Your task to perform on an android device: Check the news Image 0: 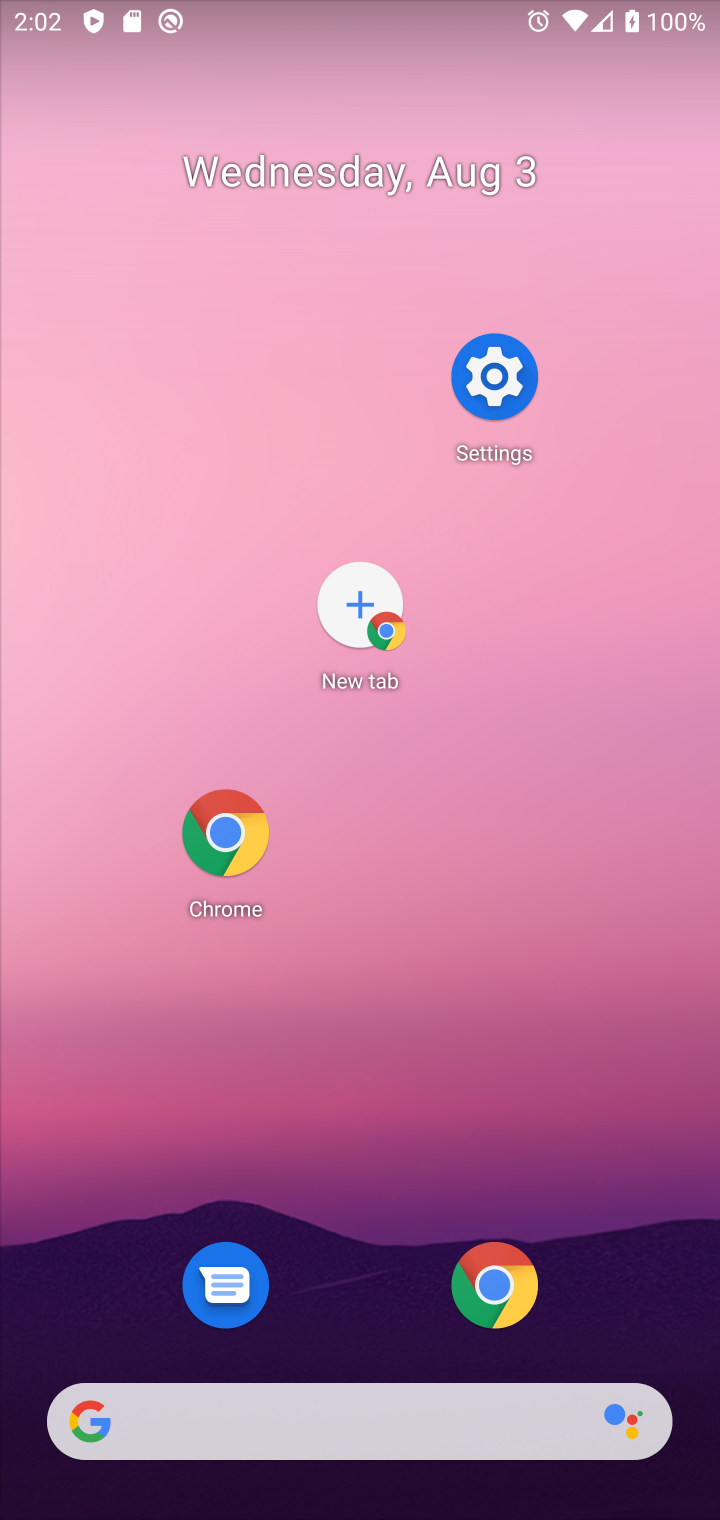
Step 0: drag from (301, 390) to (275, 228)
Your task to perform on an android device: Check the news Image 1: 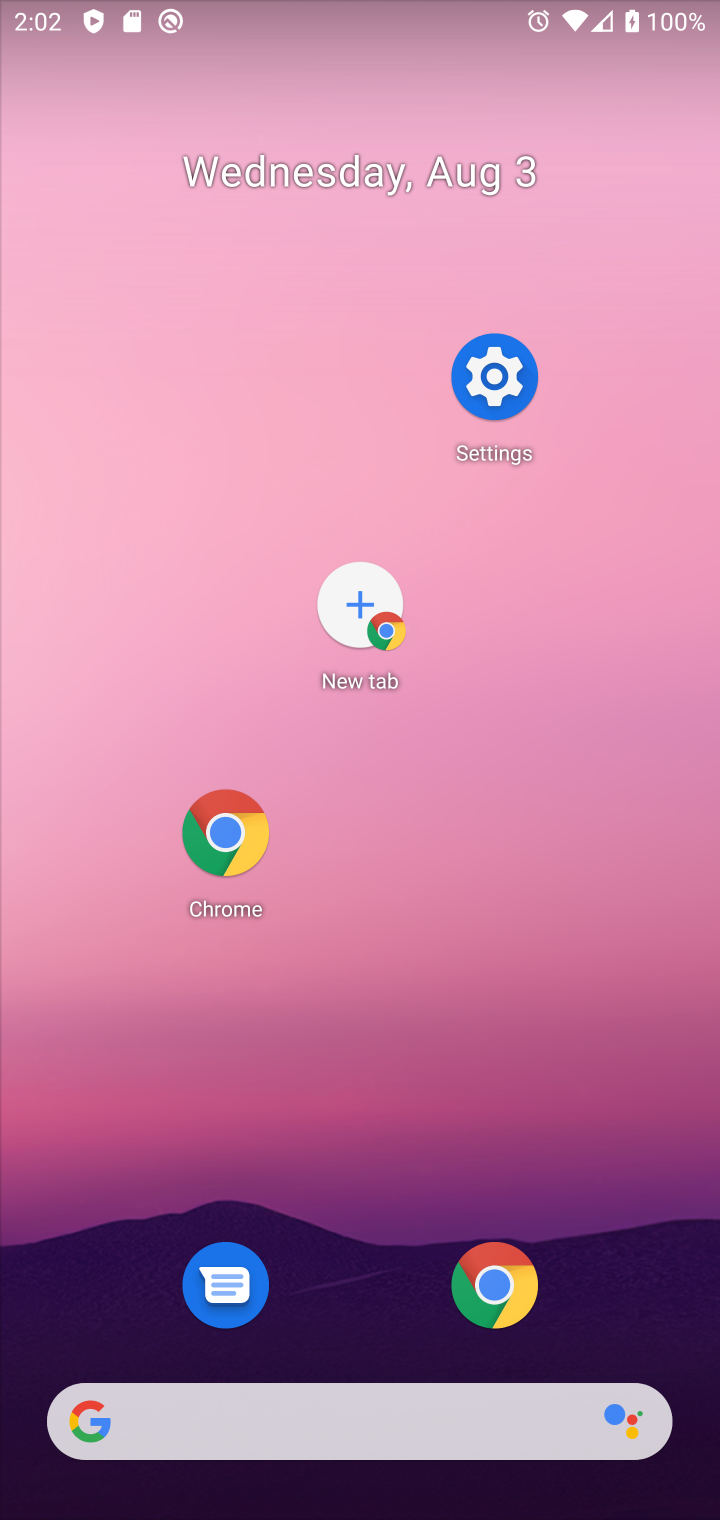
Step 1: click (340, 826)
Your task to perform on an android device: Check the news Image 2: 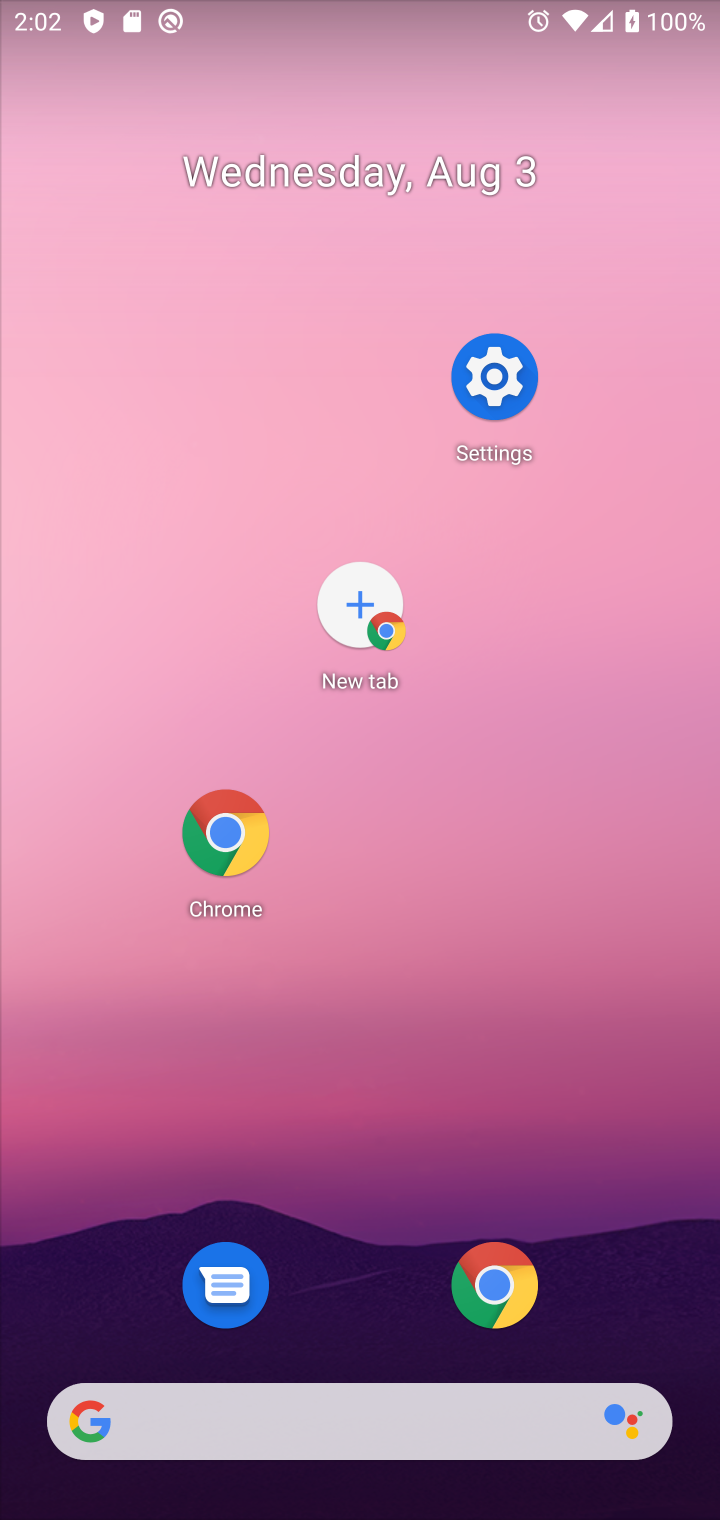
Step 2: drag from (329, 1224) to (221, 276)
Your task to perform on an android device: Check the news Image 3: 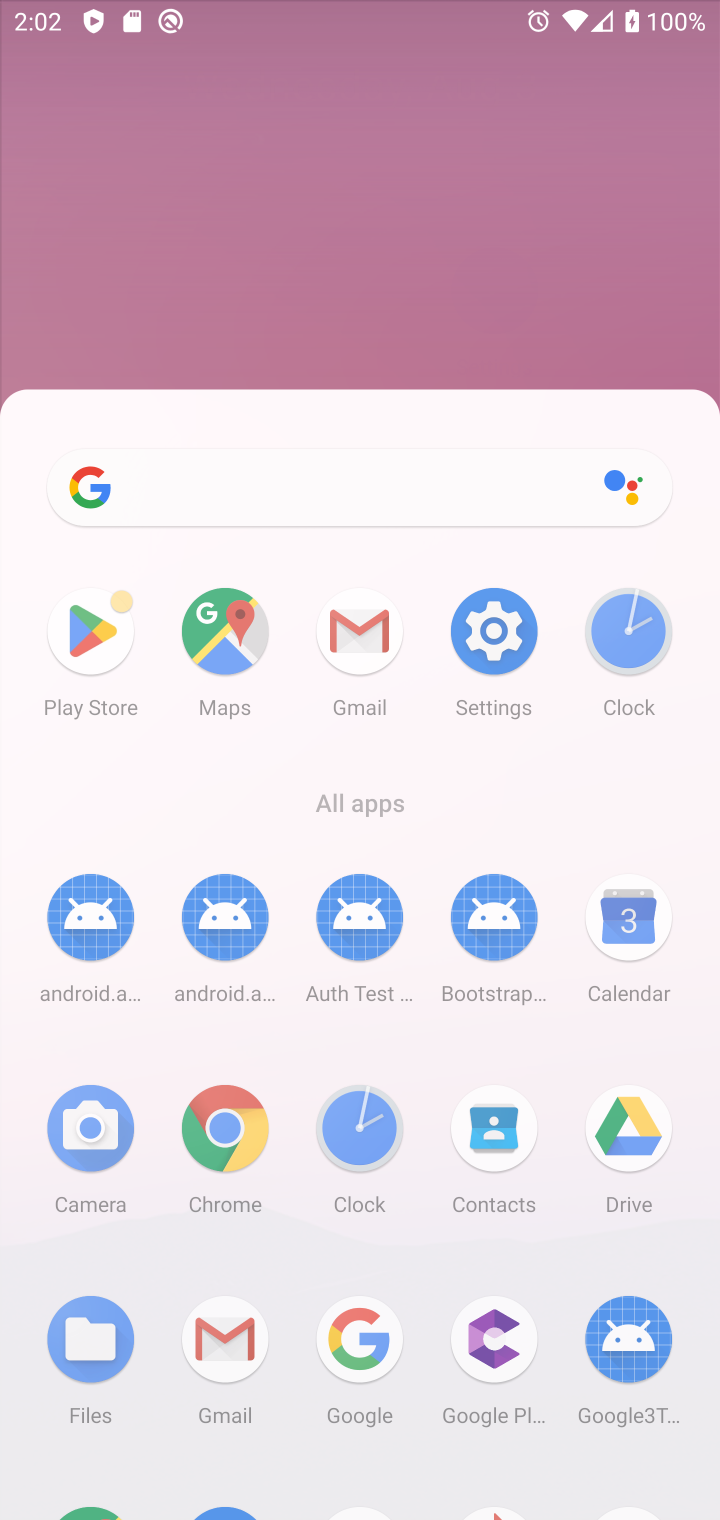
Step 3: drag from (322, 1159) to (169, 240)
Your task to perform on an android device: Check the news Image 4: 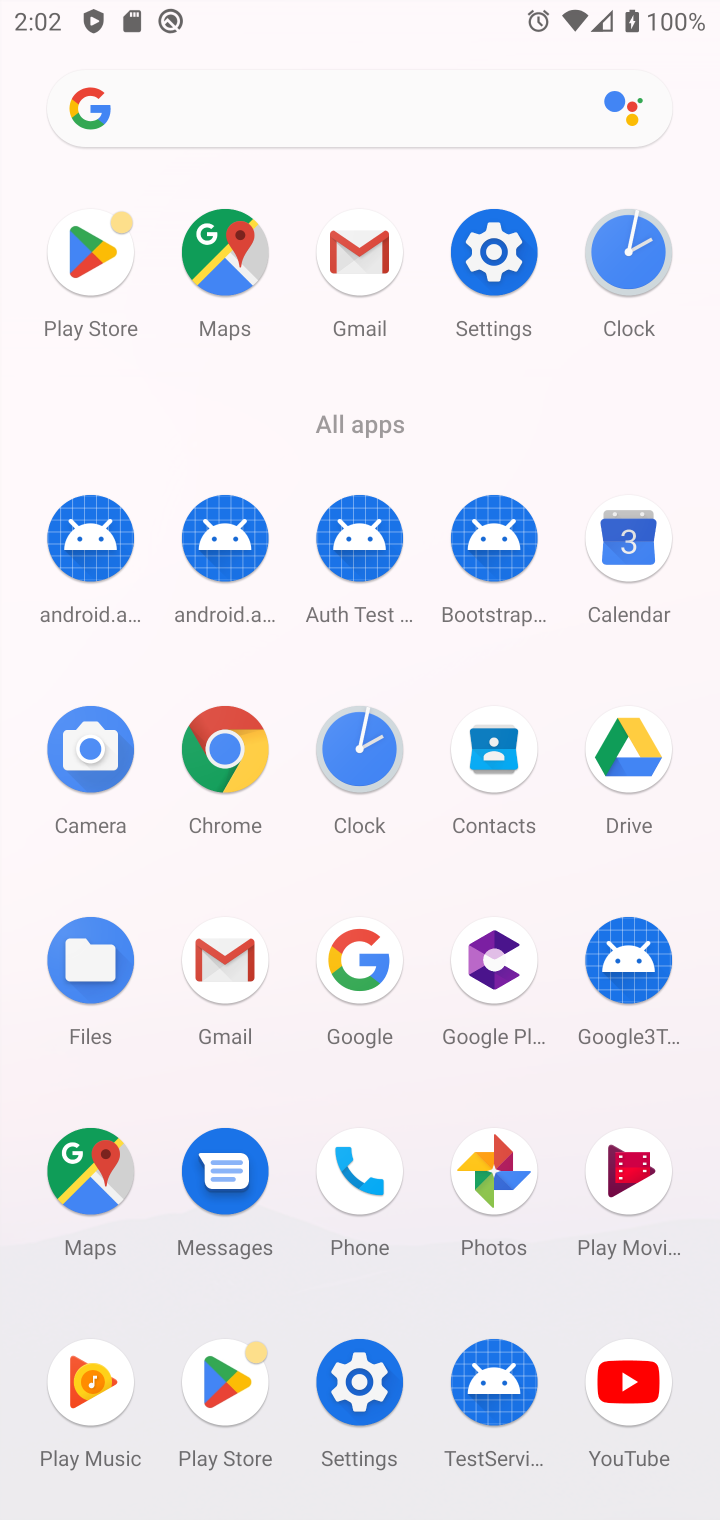
Step 4: click (470, 246)
Your task to perform on an android device: Check the news Image 5: 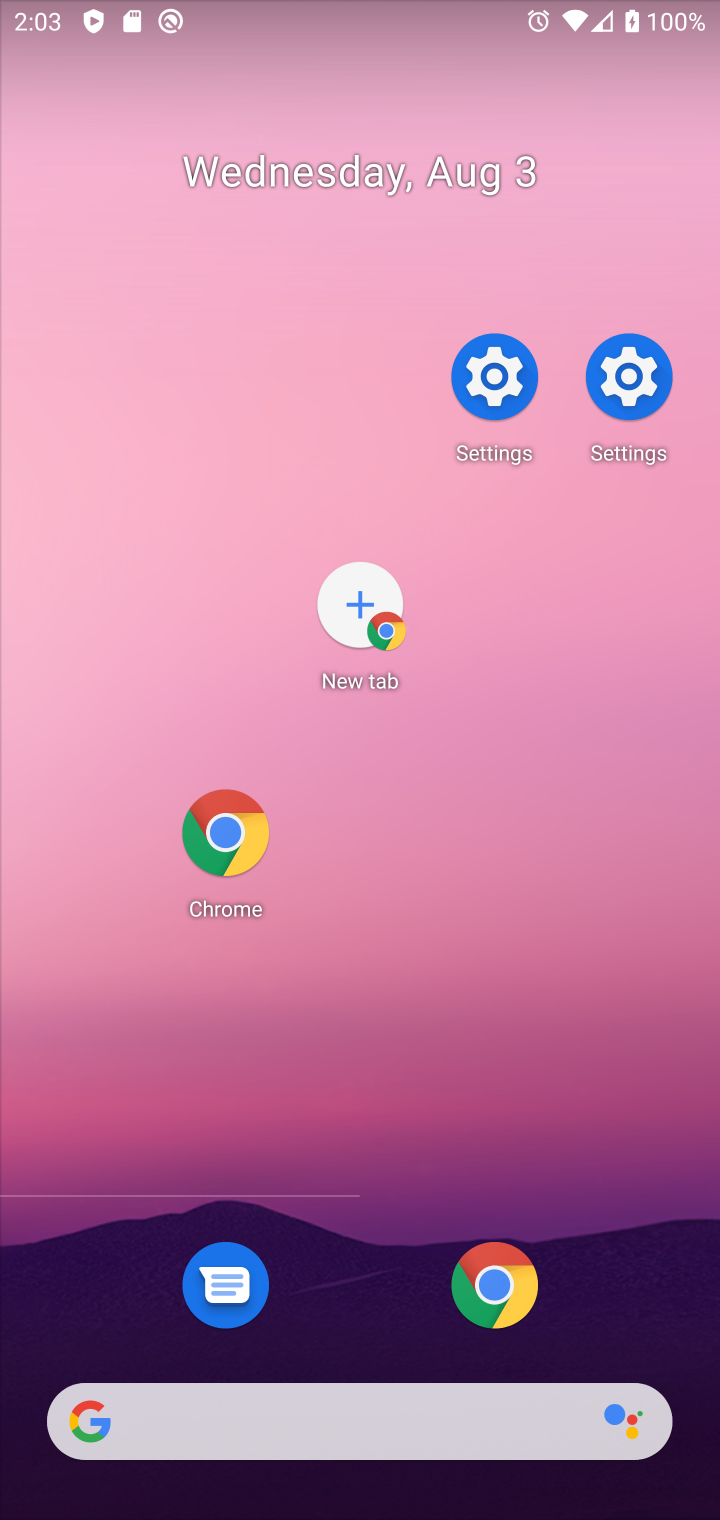
Step 5: click (313, 81)
Your task to perform on an android device: Check the news Image 6: 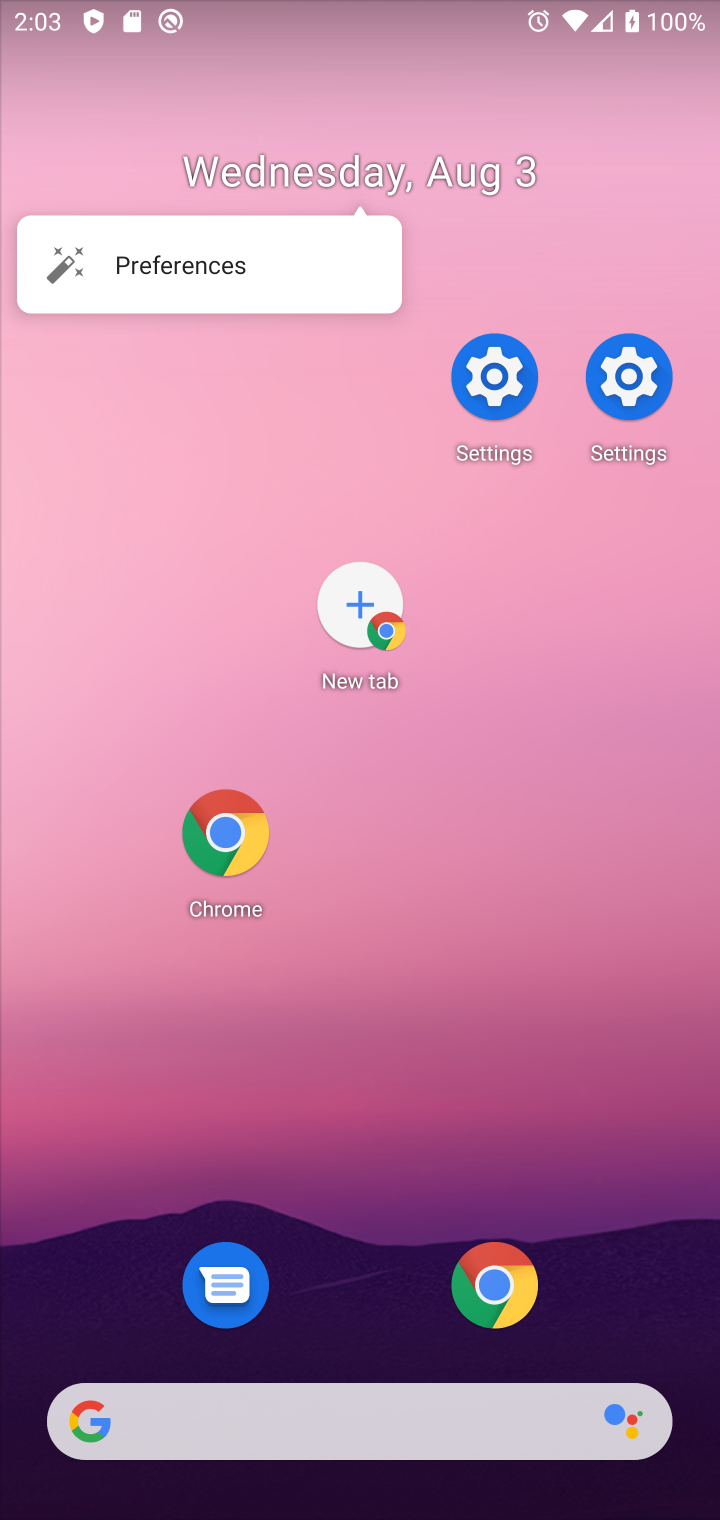
Step 6: press back button
Your task to perform on an android device: Check the news Image 7: 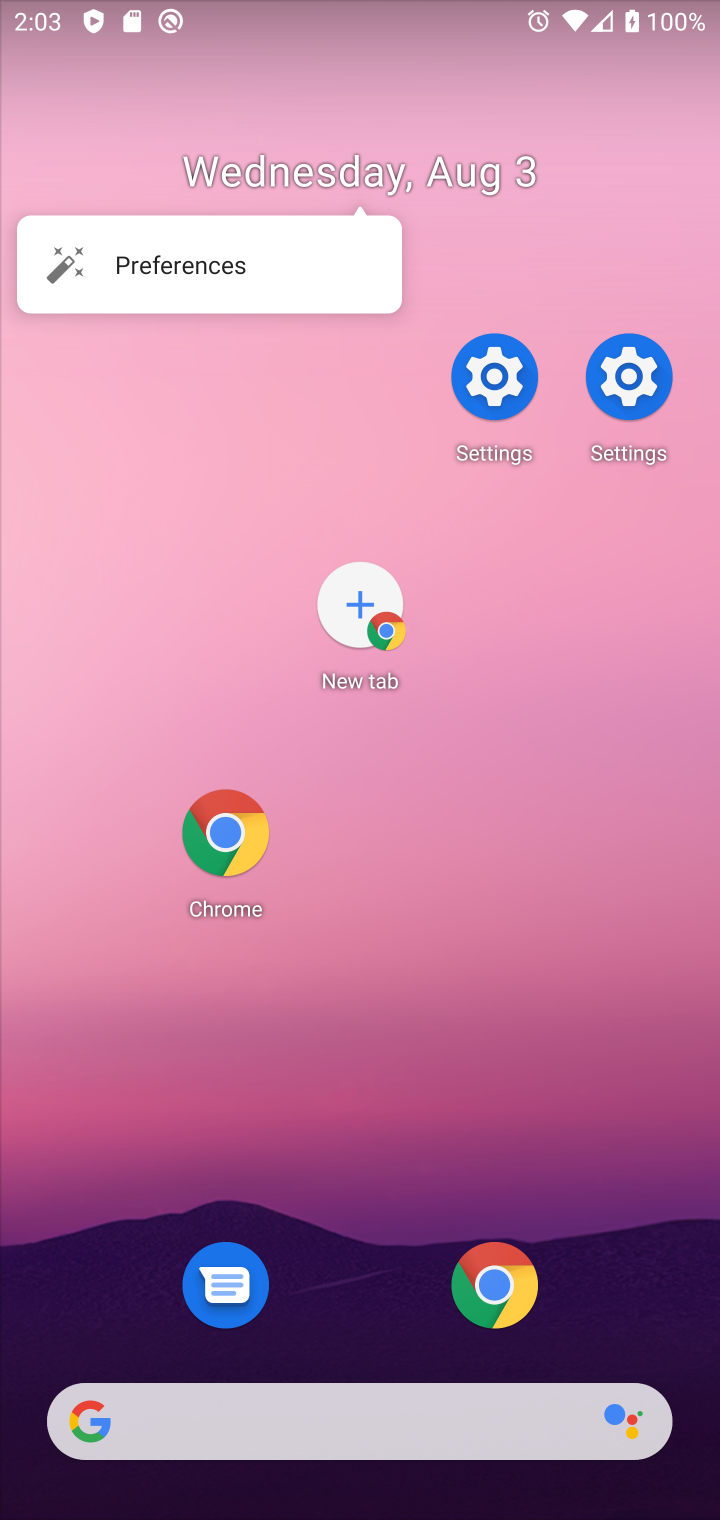
Step 7: press back button
Your task to perform on an android device: Check the news Image 8: 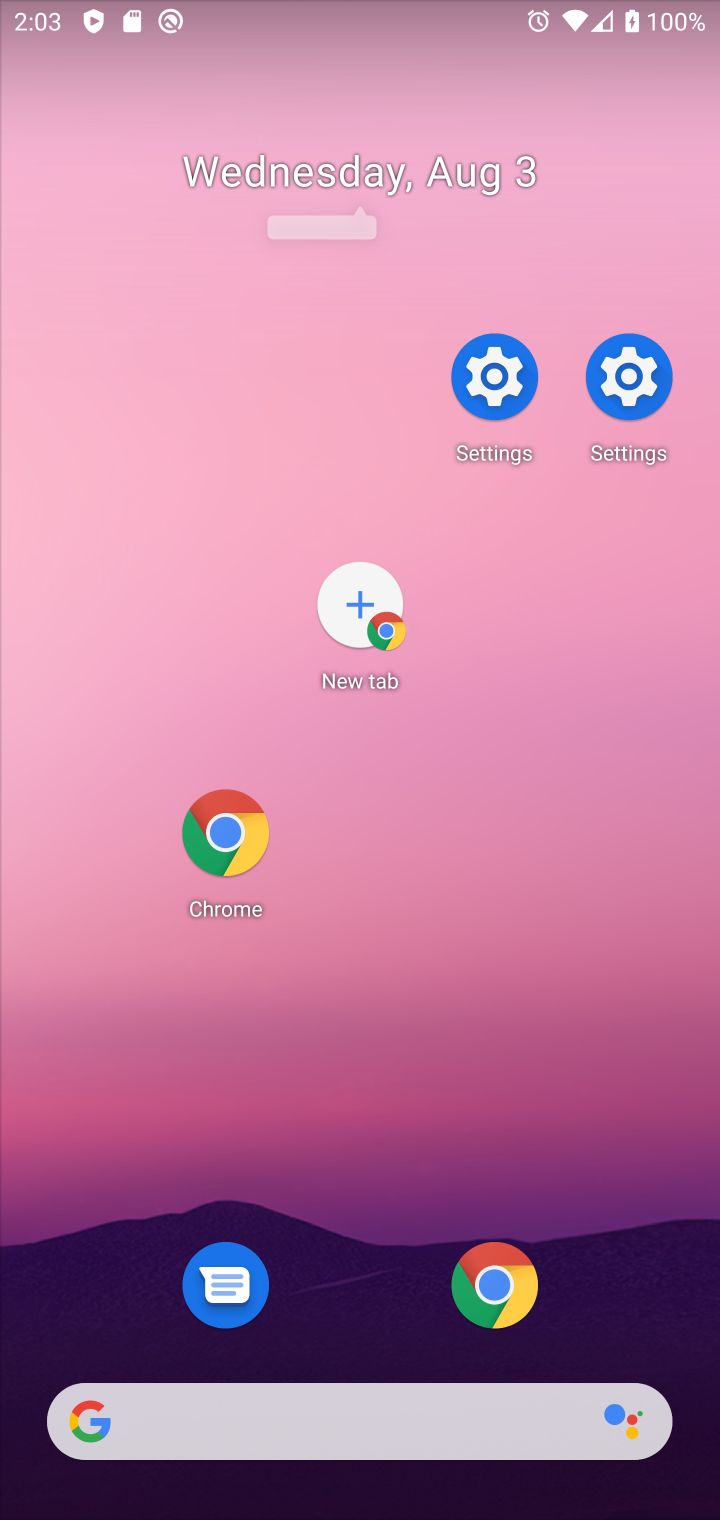
Step 8: drag from (458, 728) to (319, 118)
Your task to perform on an android device: Check the news Image 9: 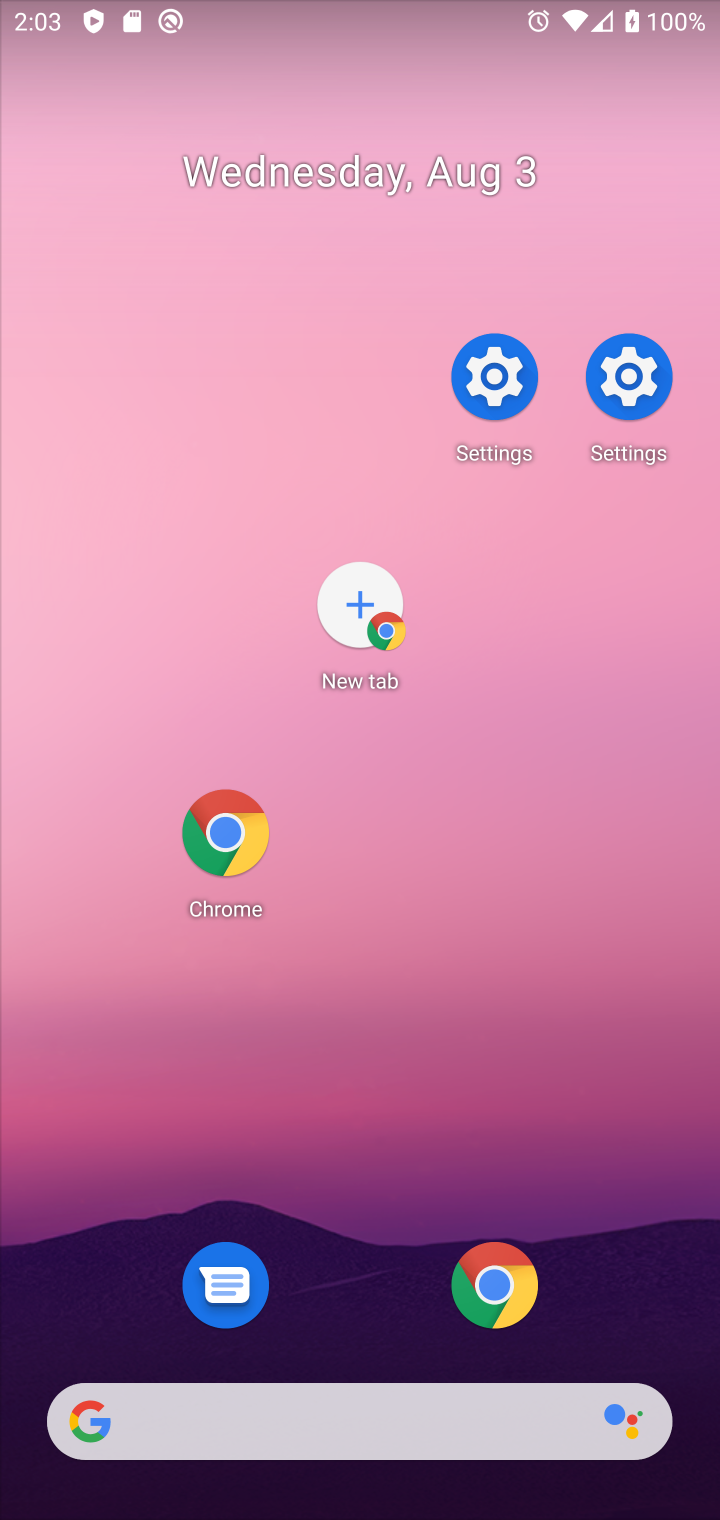
Step 9: drag from (390, 1014) to (276, 14)
Your task to perform on an android device: Check the news Image 10: 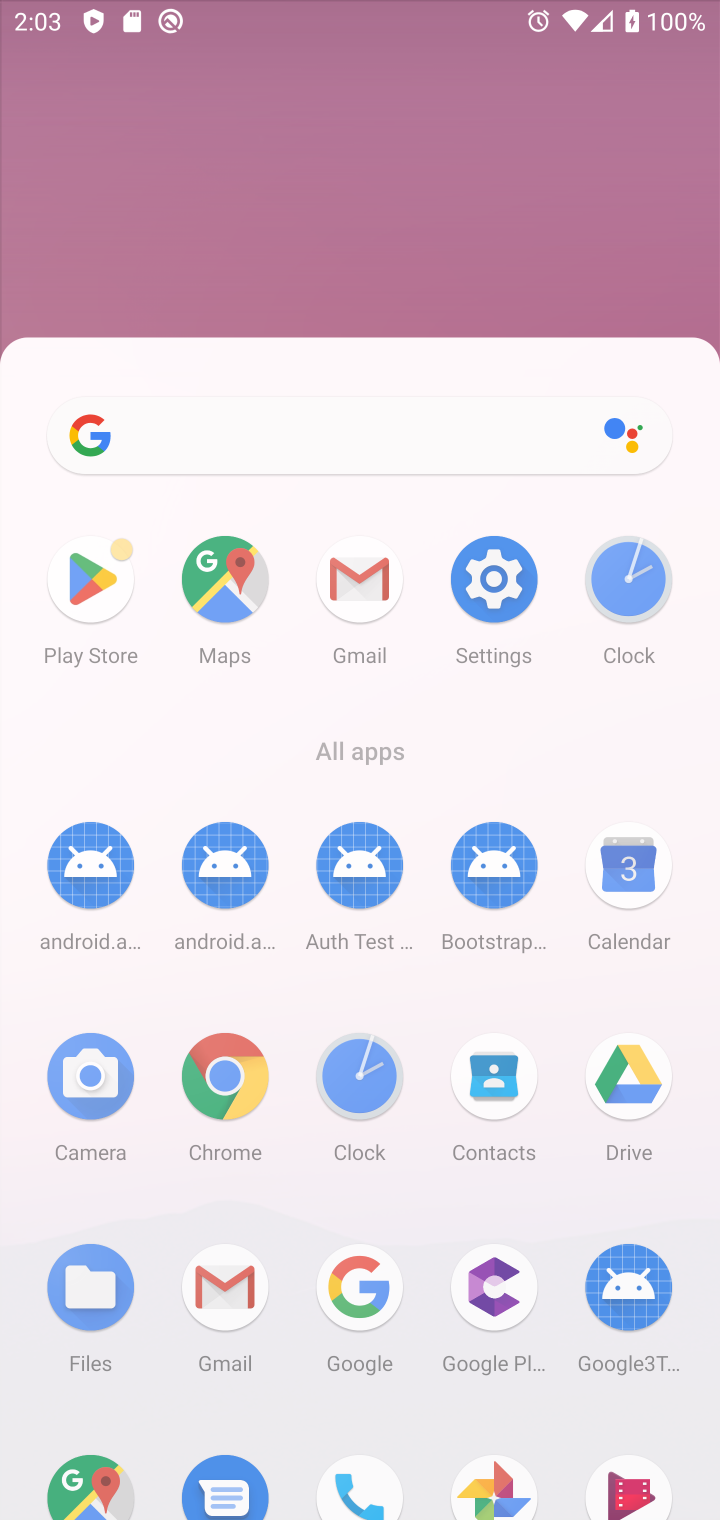
Step 10: click (288, 392)
Your task to perform on an android device: Check the news Image 11: 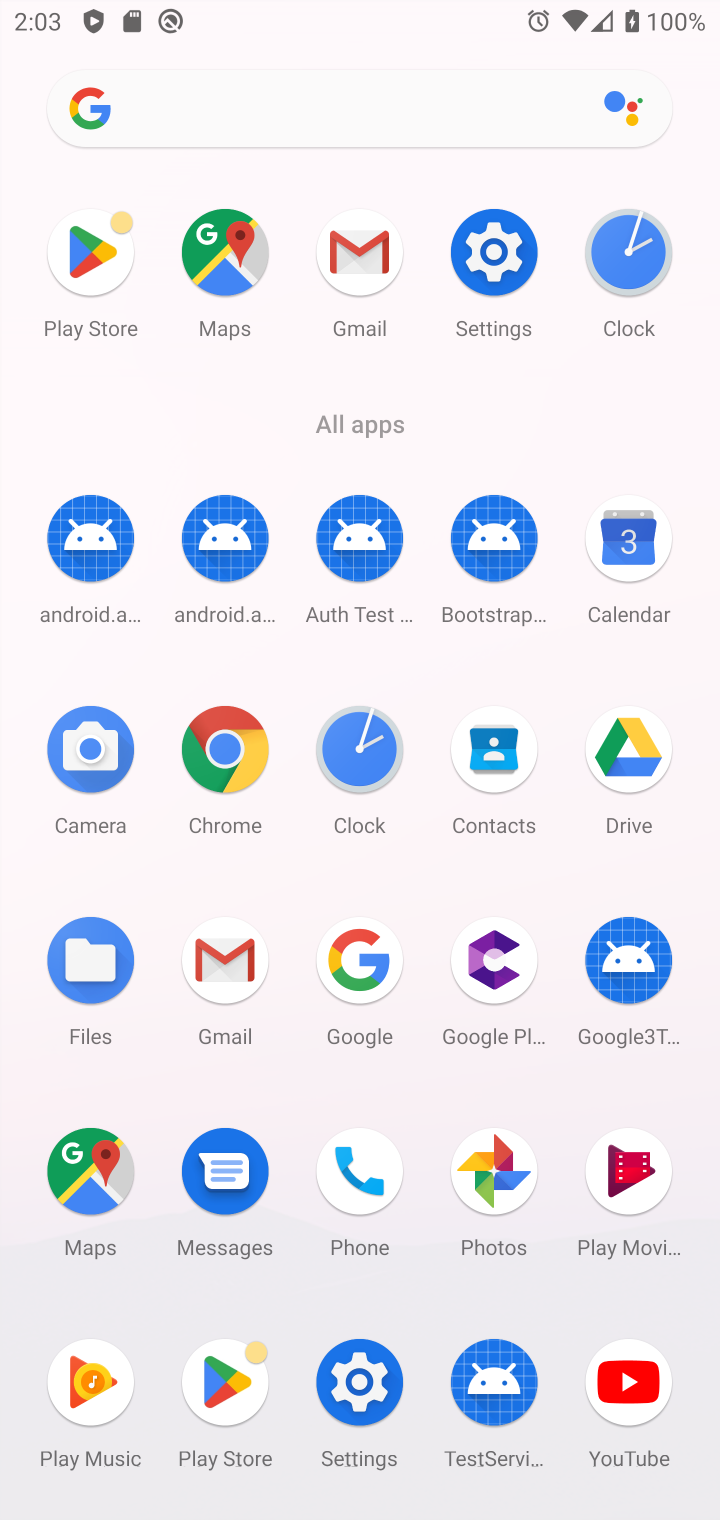
Step 11: click (508, 266)
Your task to perform on an android device: Check the news Image 12: 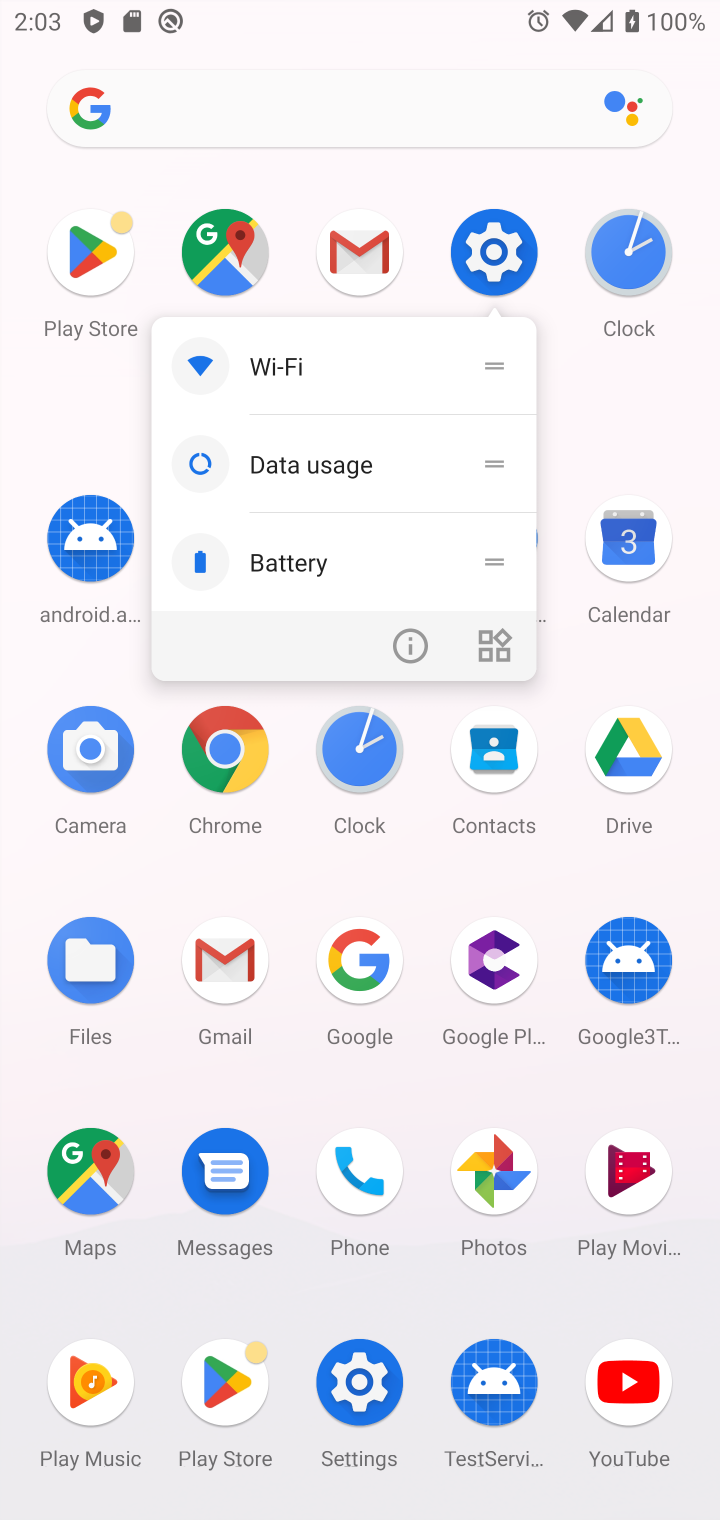
Step 12: click (611, 248)
Your task to perform on an android device: Check the news Image 13: 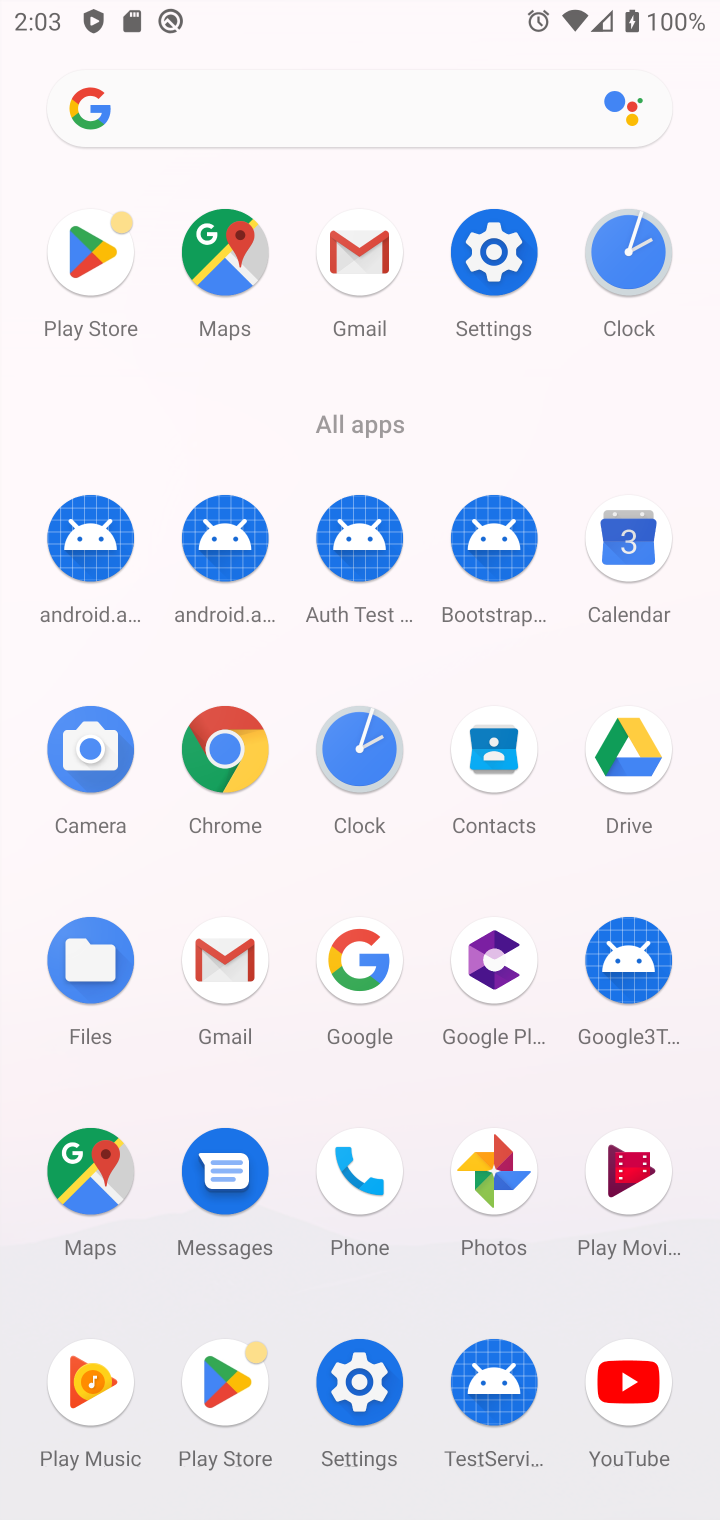
Step 13: click (626, 252)
Your task to perform on an android device: Check the news Image 14: 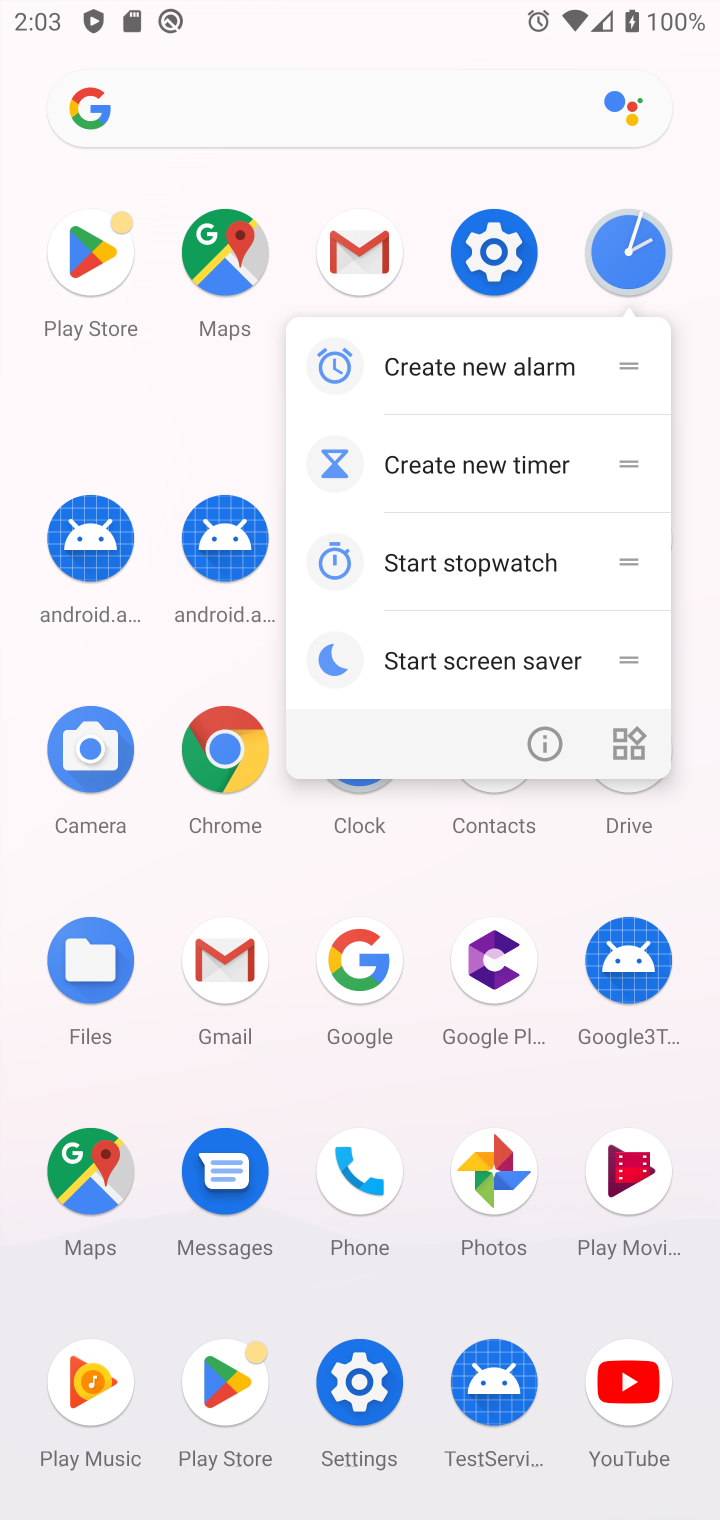
Step 14: click (627, 249)
Your task to perform on an android device: Check the news Image 15: 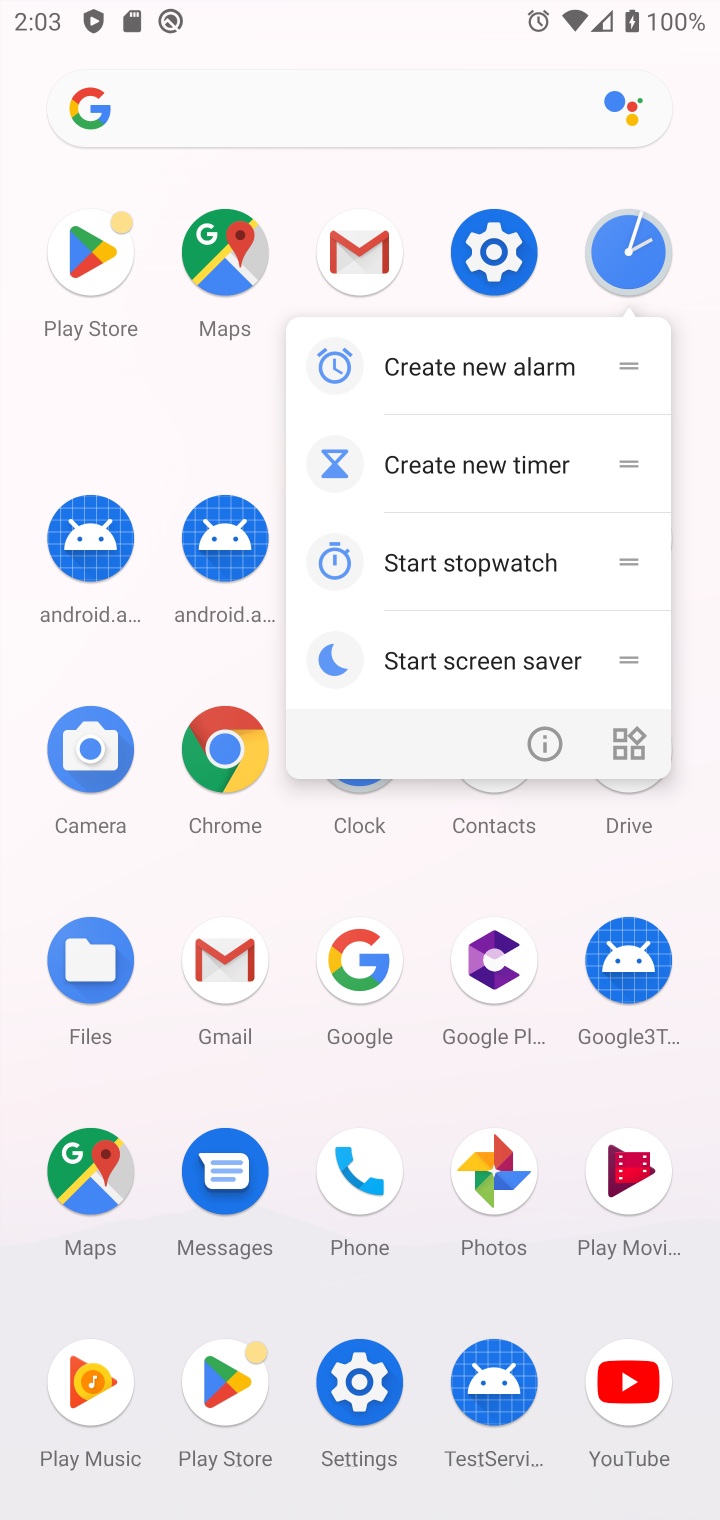
Step 15: click (621, 273)
Your task to perform on an android device: Check the news Image 16: 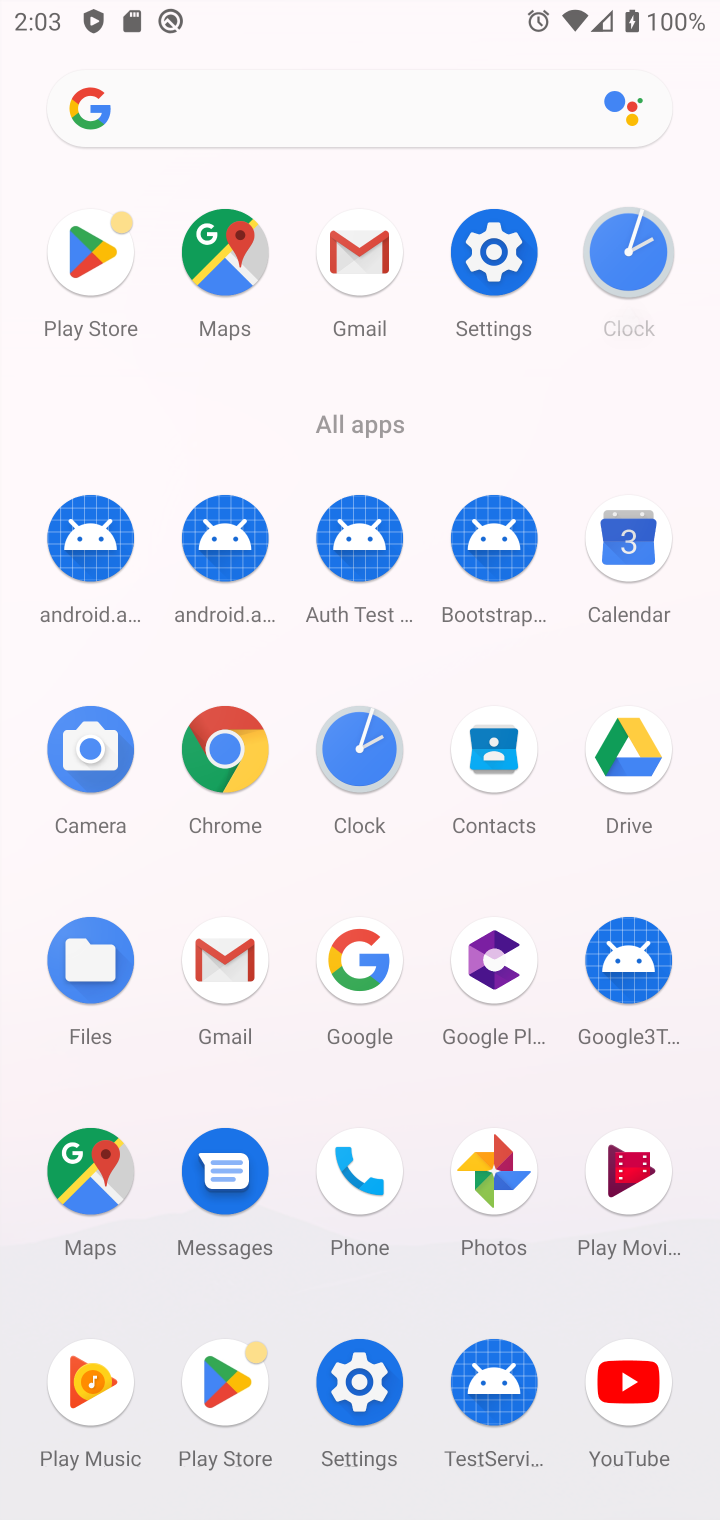
Step 16: click (619, 281)
Your task to perform on an android device: Check the news Image 17: 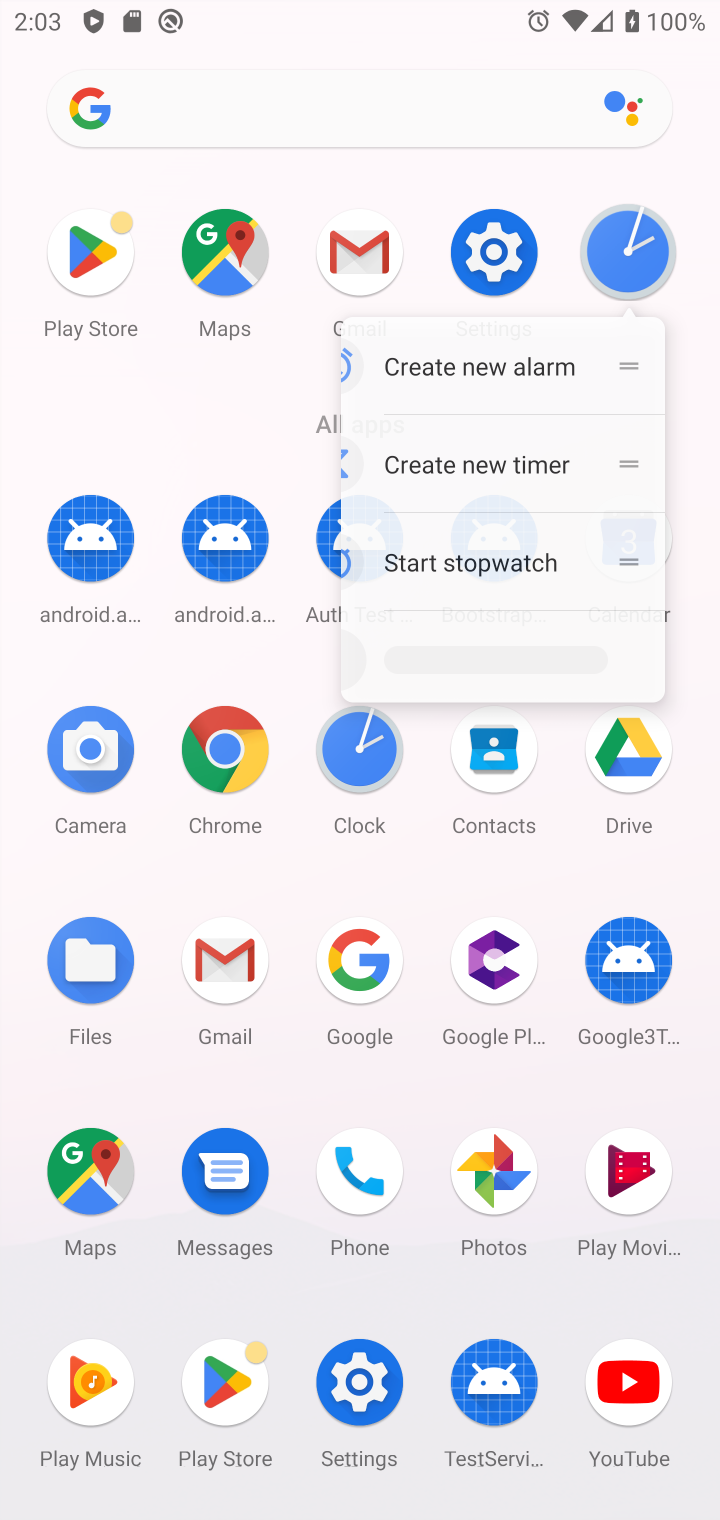
Step 17: click (631, 224)
Your task to perform on an android device: Check the news Image 18: 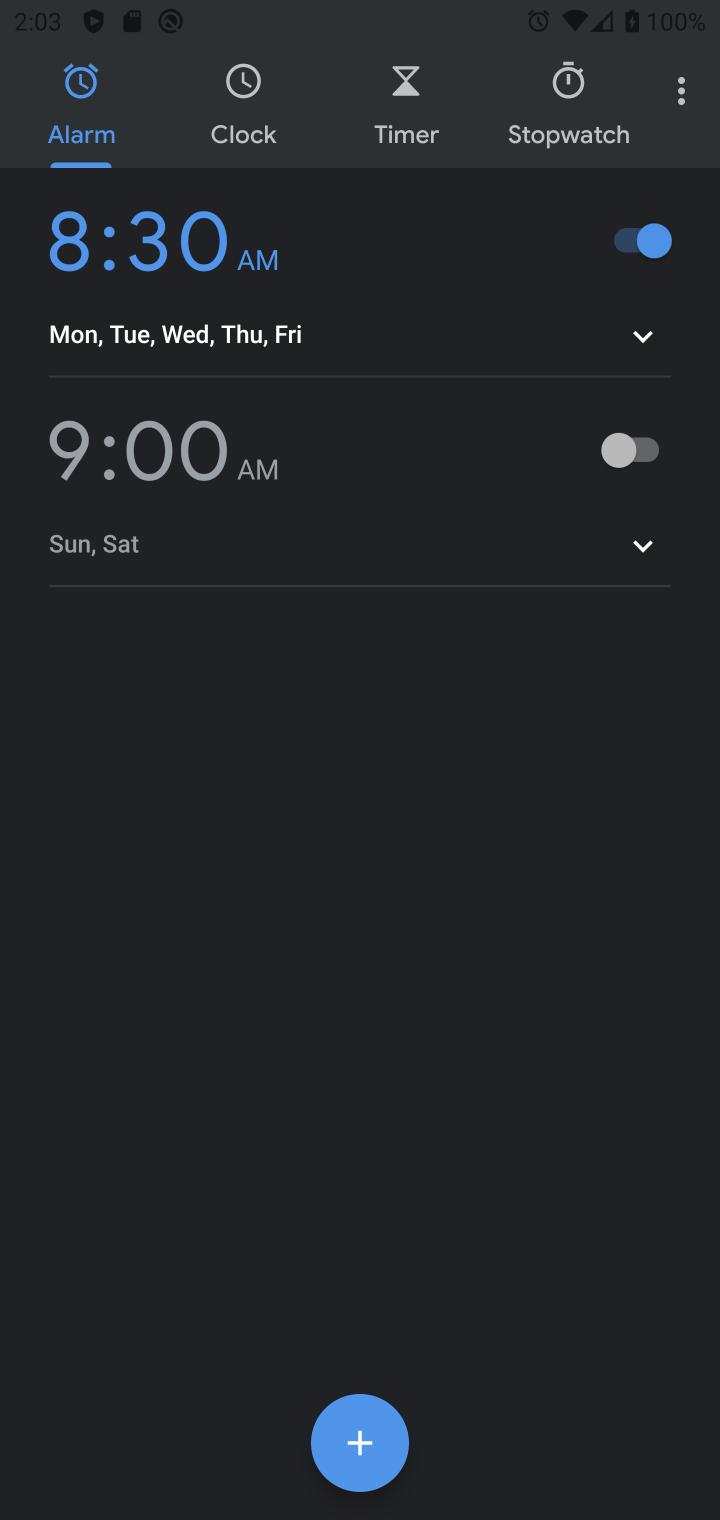
Step 18: click (631, 224)
Your task to perform on an android device: Check the news Image 19: 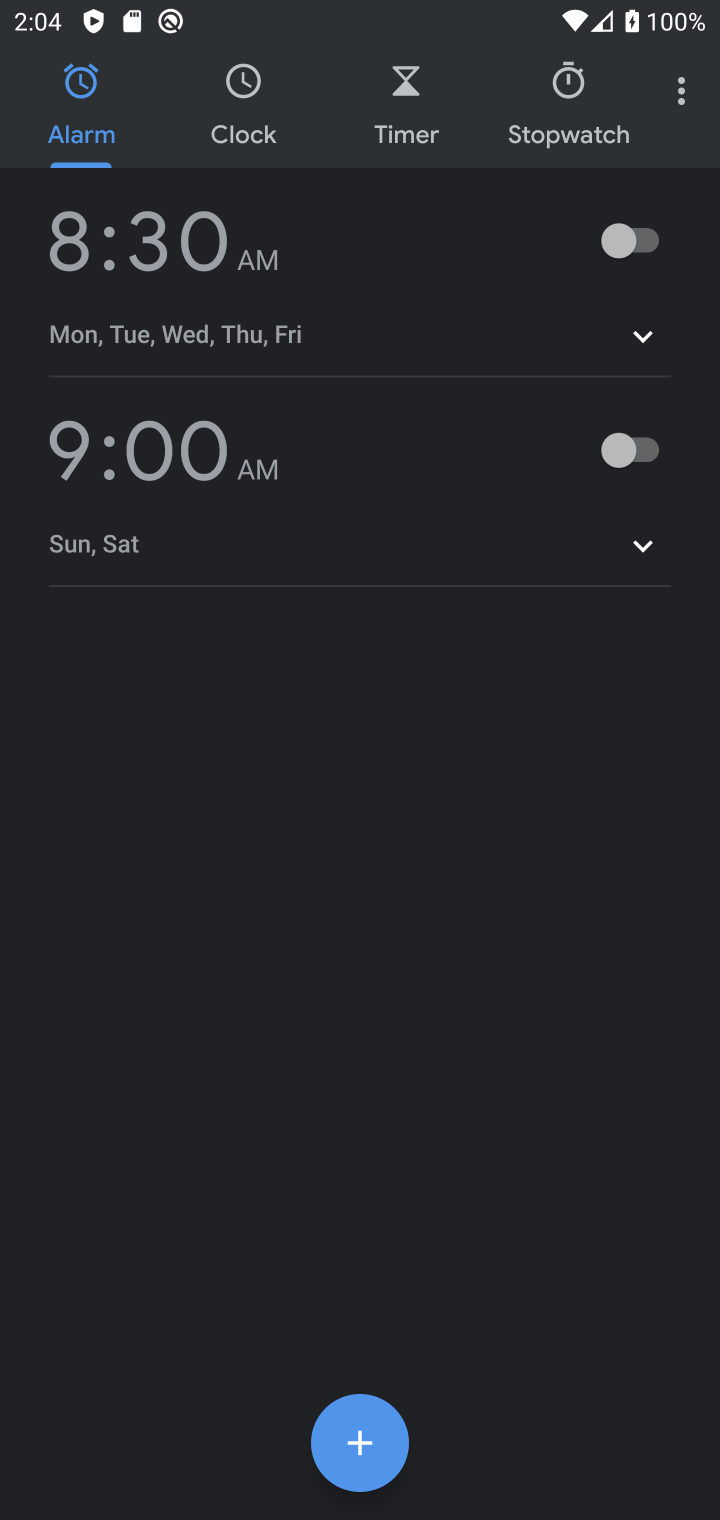
Step 19: press back button
Your task to perform on an android device: Check the news Image 20: 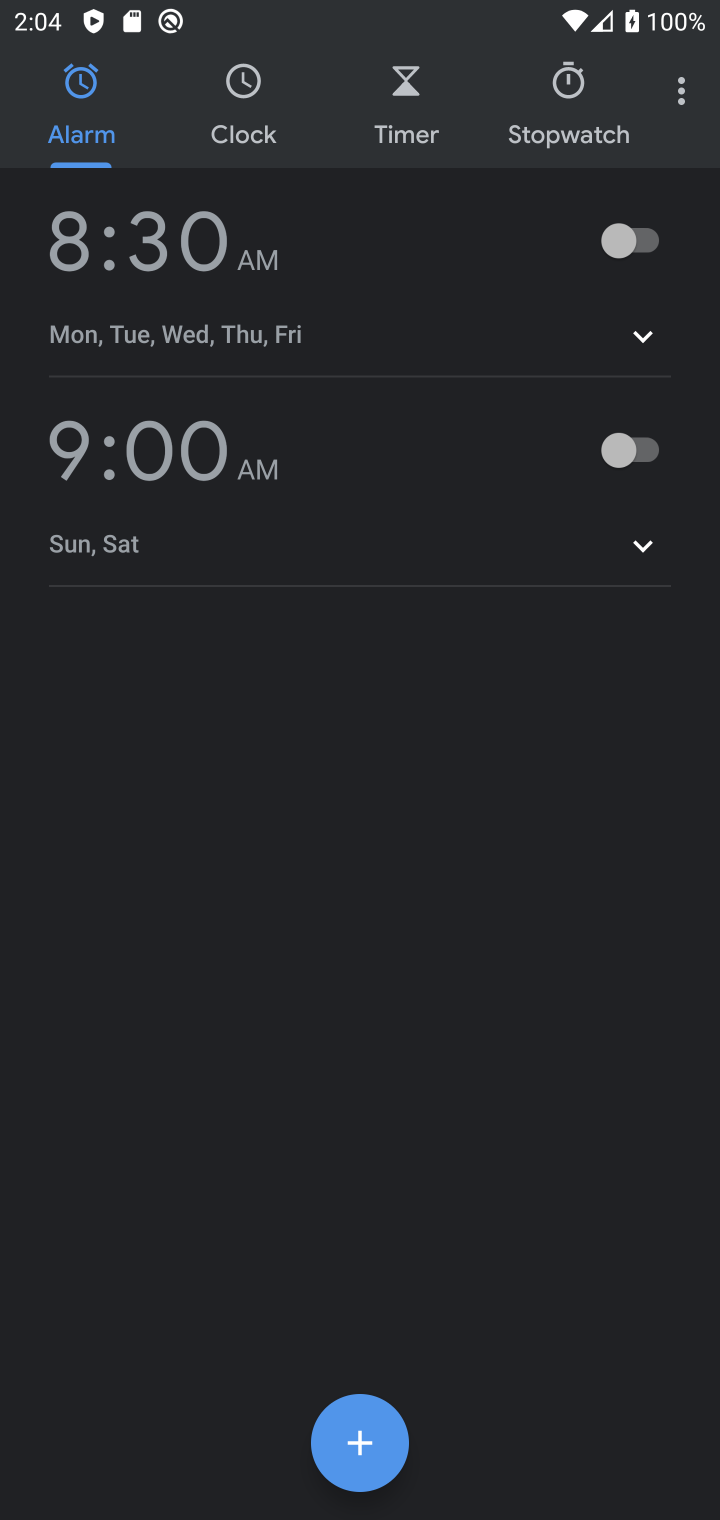
Step 20: press back button
Your task to perform on an android device: Check the news Image 21: 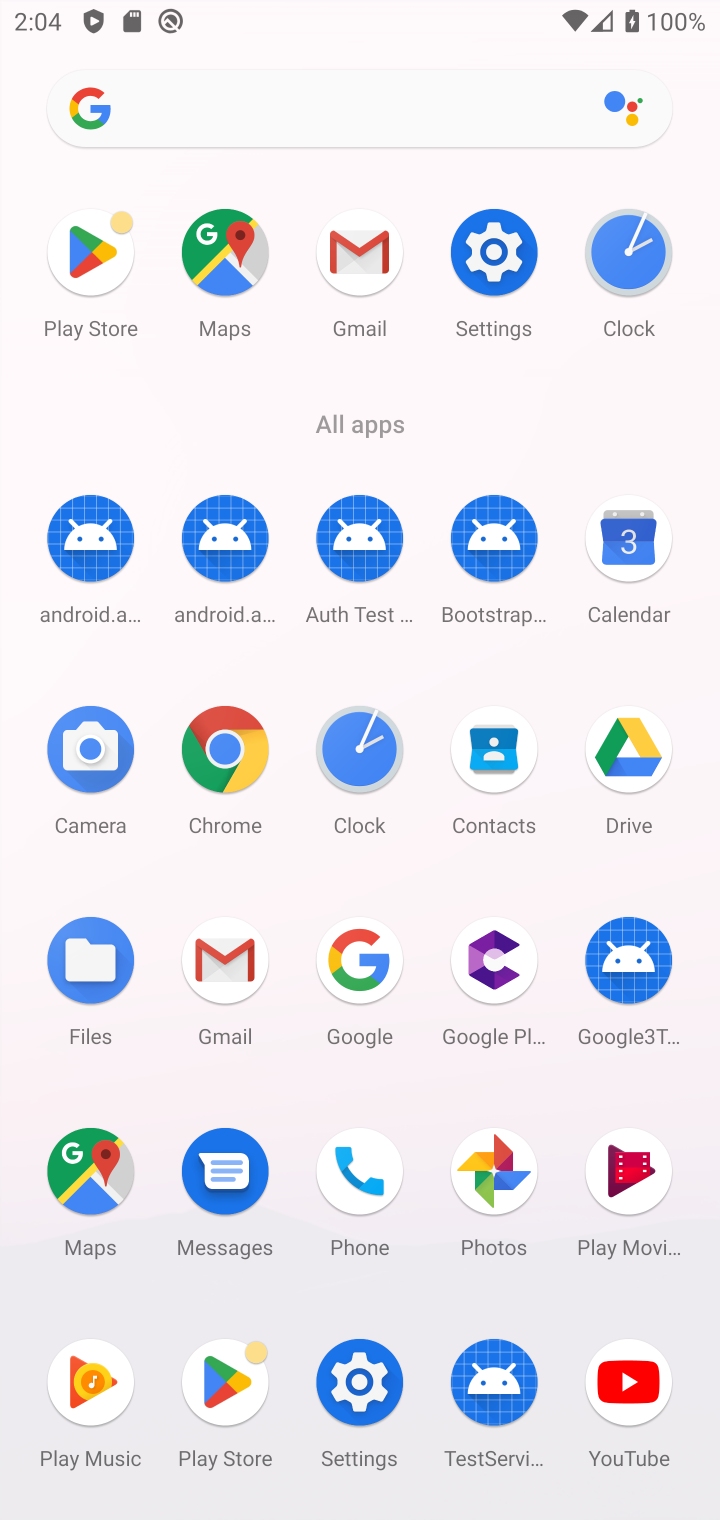
Step 21: press back button
Your task to perform on an android device: Check the news Image 22: 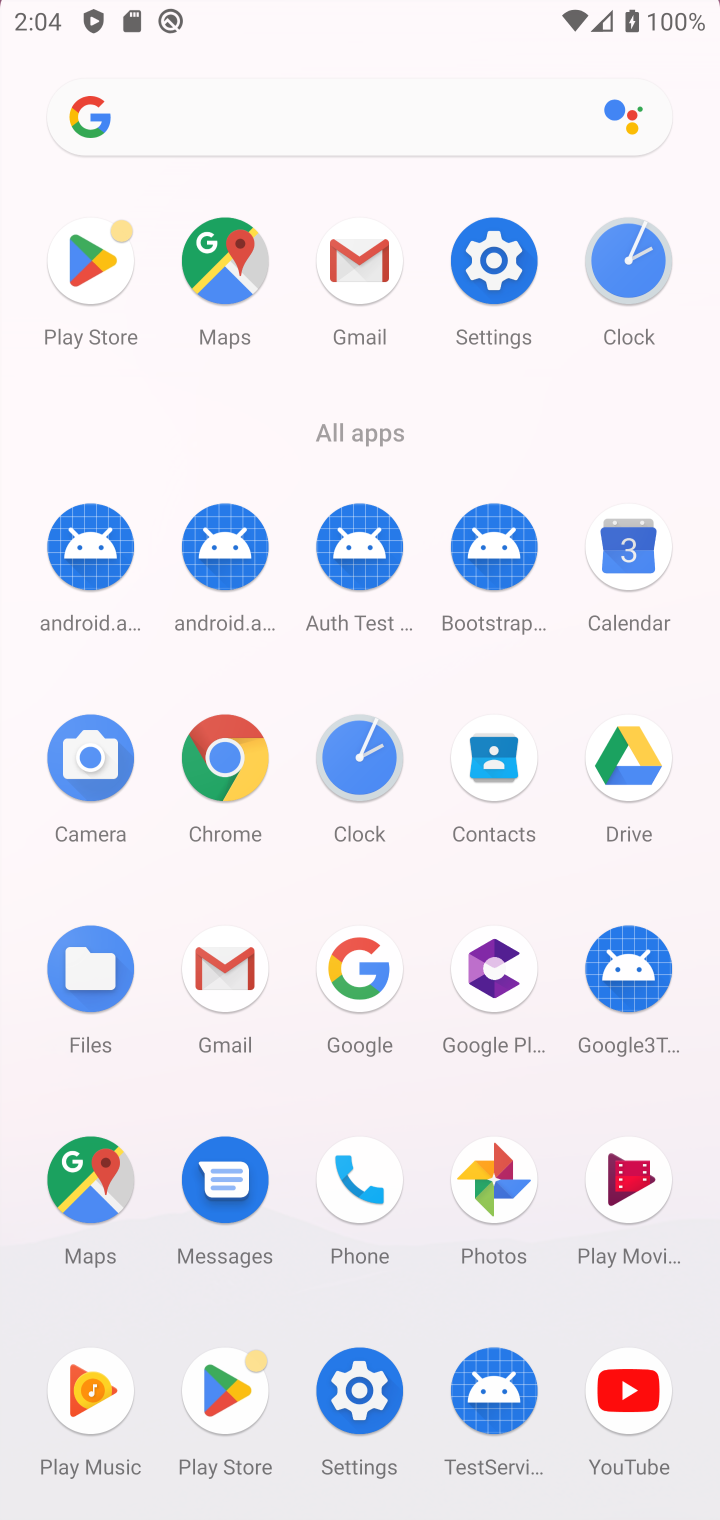
Step 22: press home button
Your task to perform on an android device: Check the news Image 23: 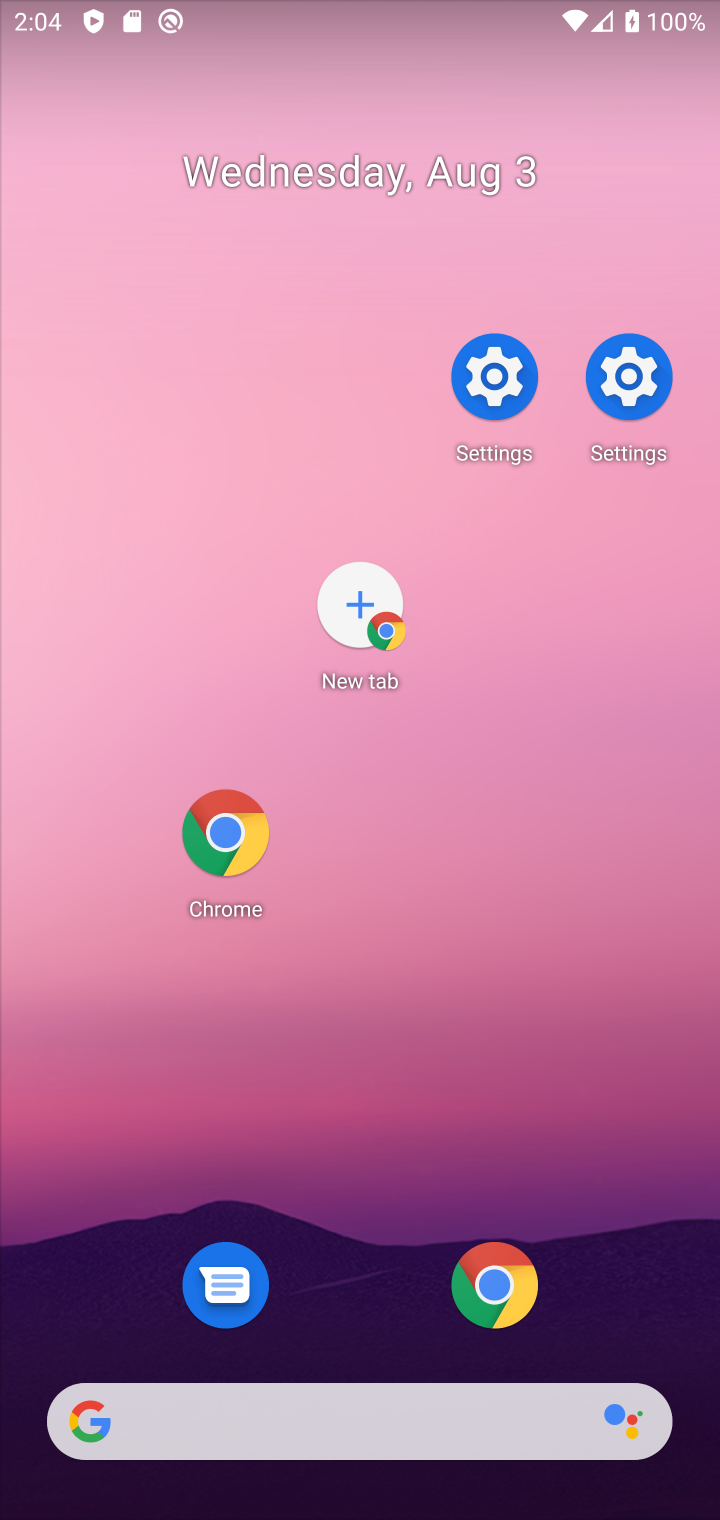
Step 23: drag from (382, 1332) to (104, 447)
Your task to perform on an android device: Check the news Image 24: 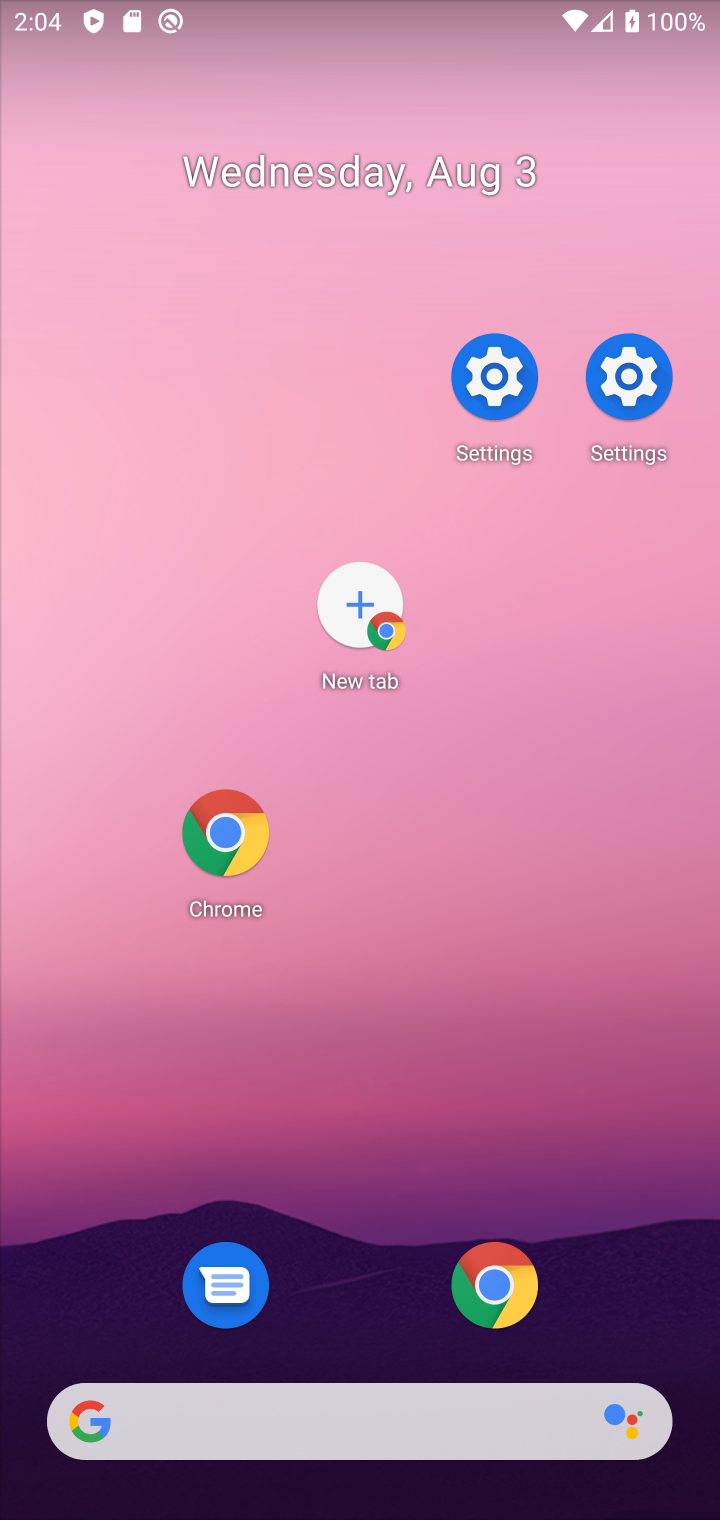
Step 24: click (253, 381)
Your task to perform on an android device: Check the news Image 25: 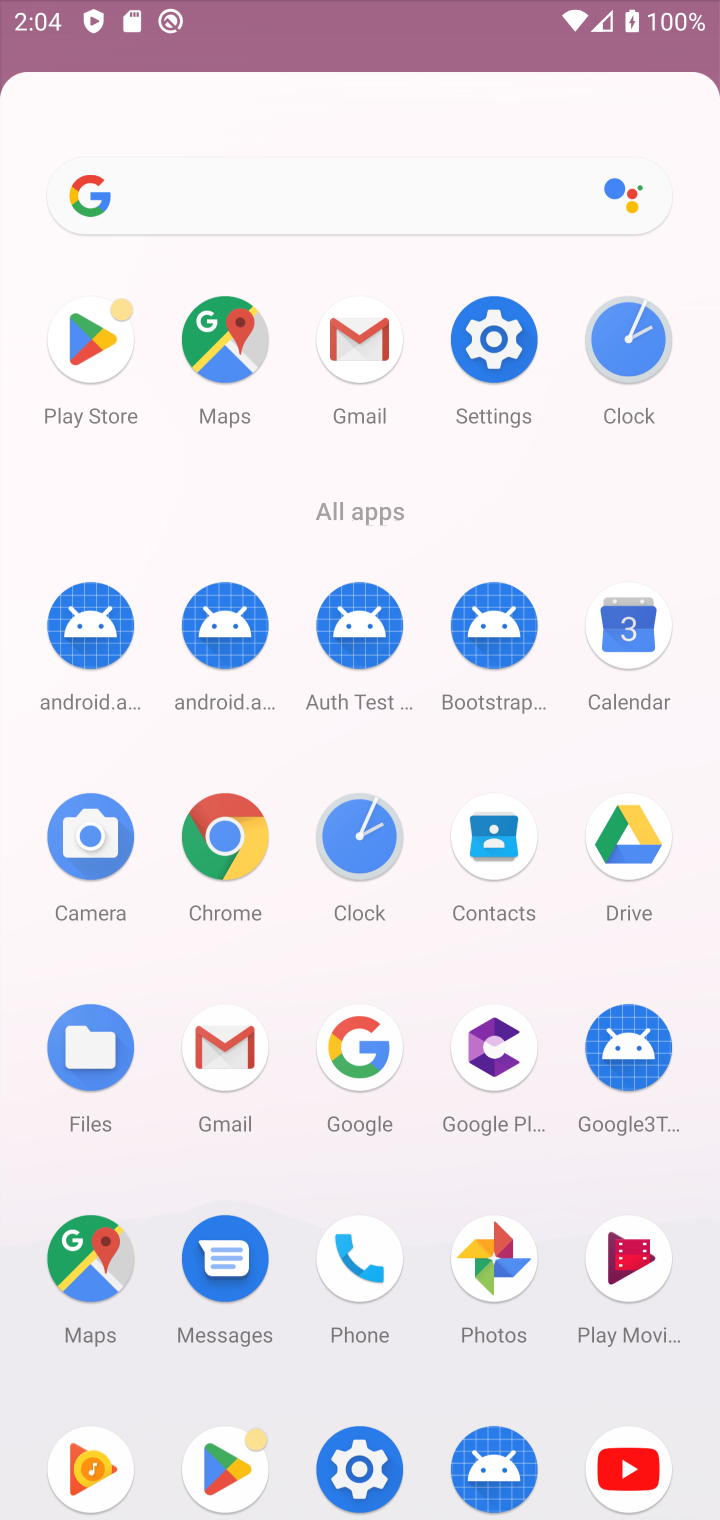
Step 25: click (283, 199)
Your task to perform on an android device: Check the news Image 26: 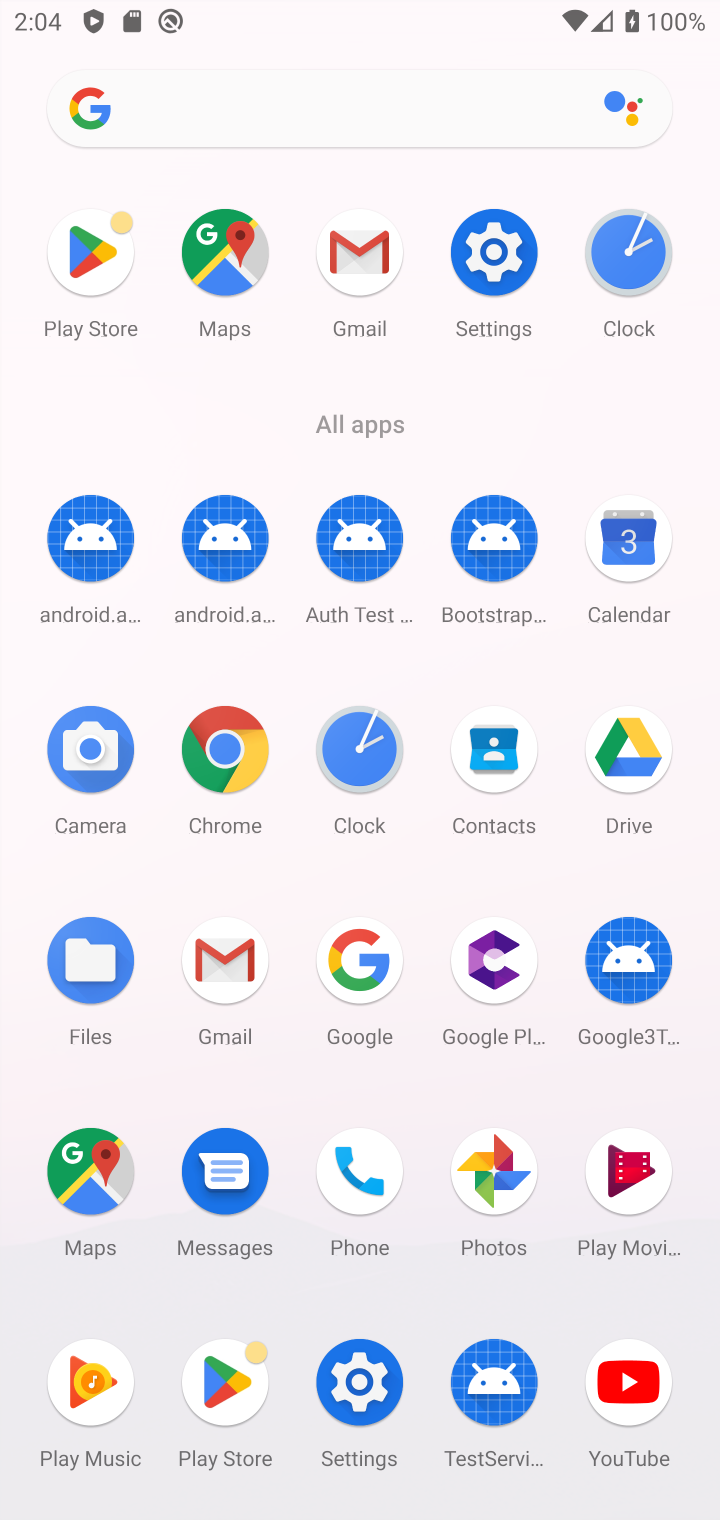
Step 26: drag from (382, 742) to (318, 395)
Your task to perform on an android device: Check the news Image 27: 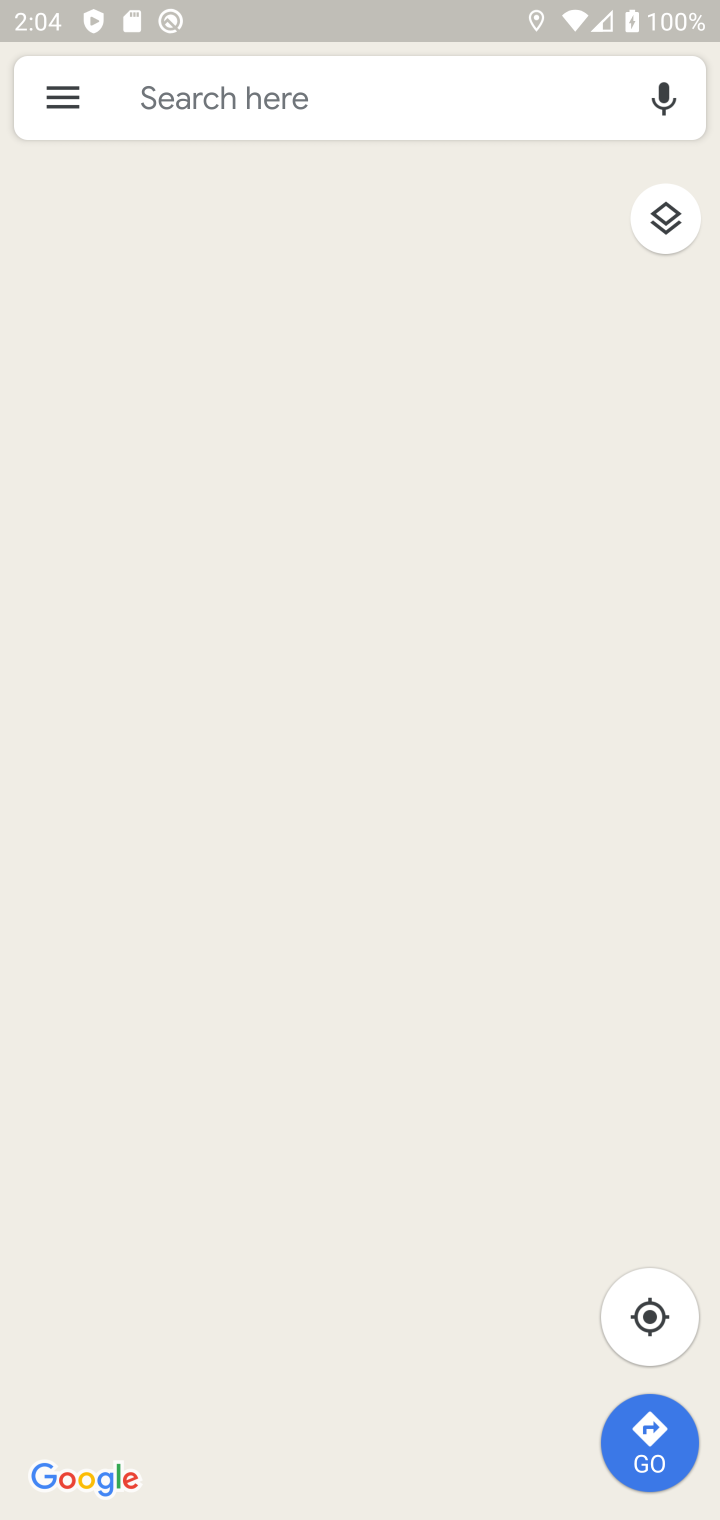
Step 27: click (227, 752)
Your task to perform on an android device: Check the news Image 28: 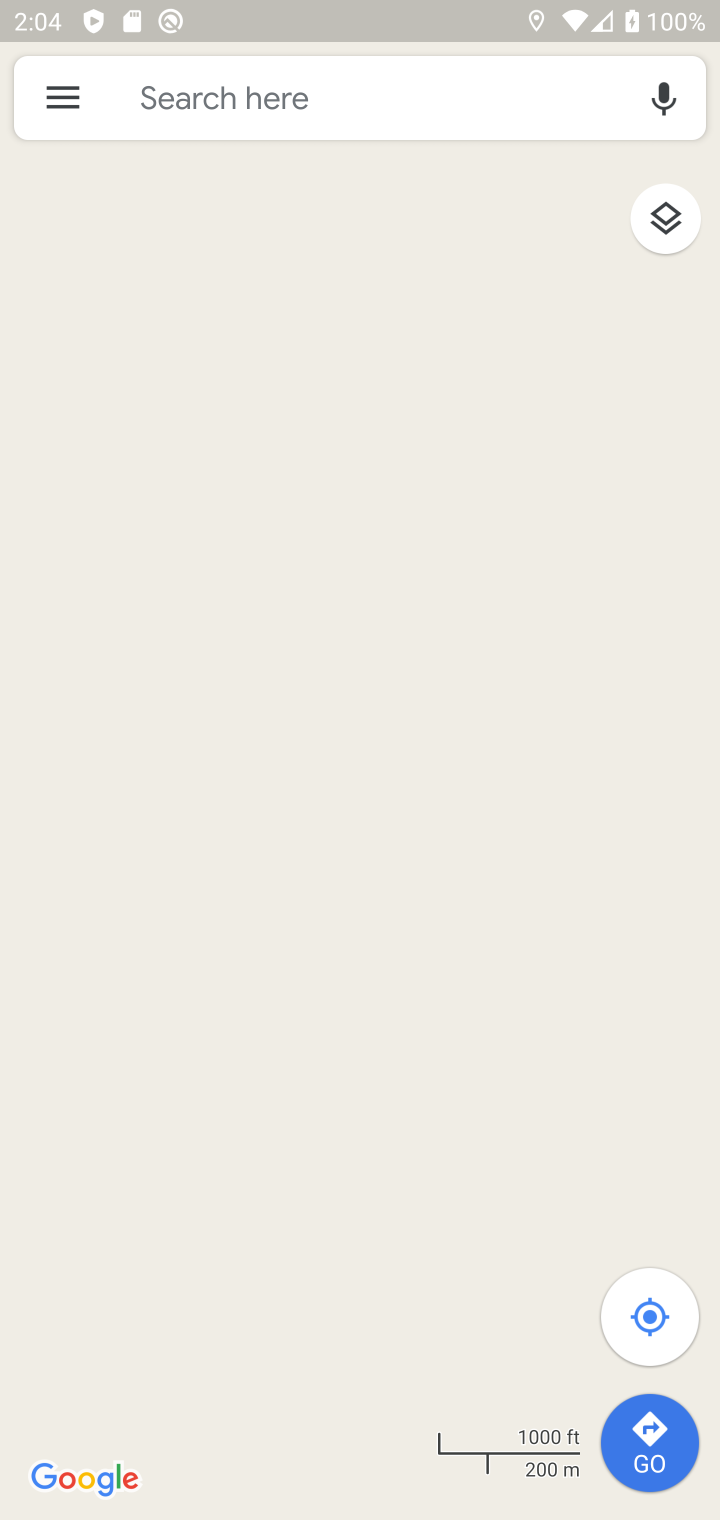
Step 28: click (86, 99)
Your task to perform on an android device: Check the news Image 29: 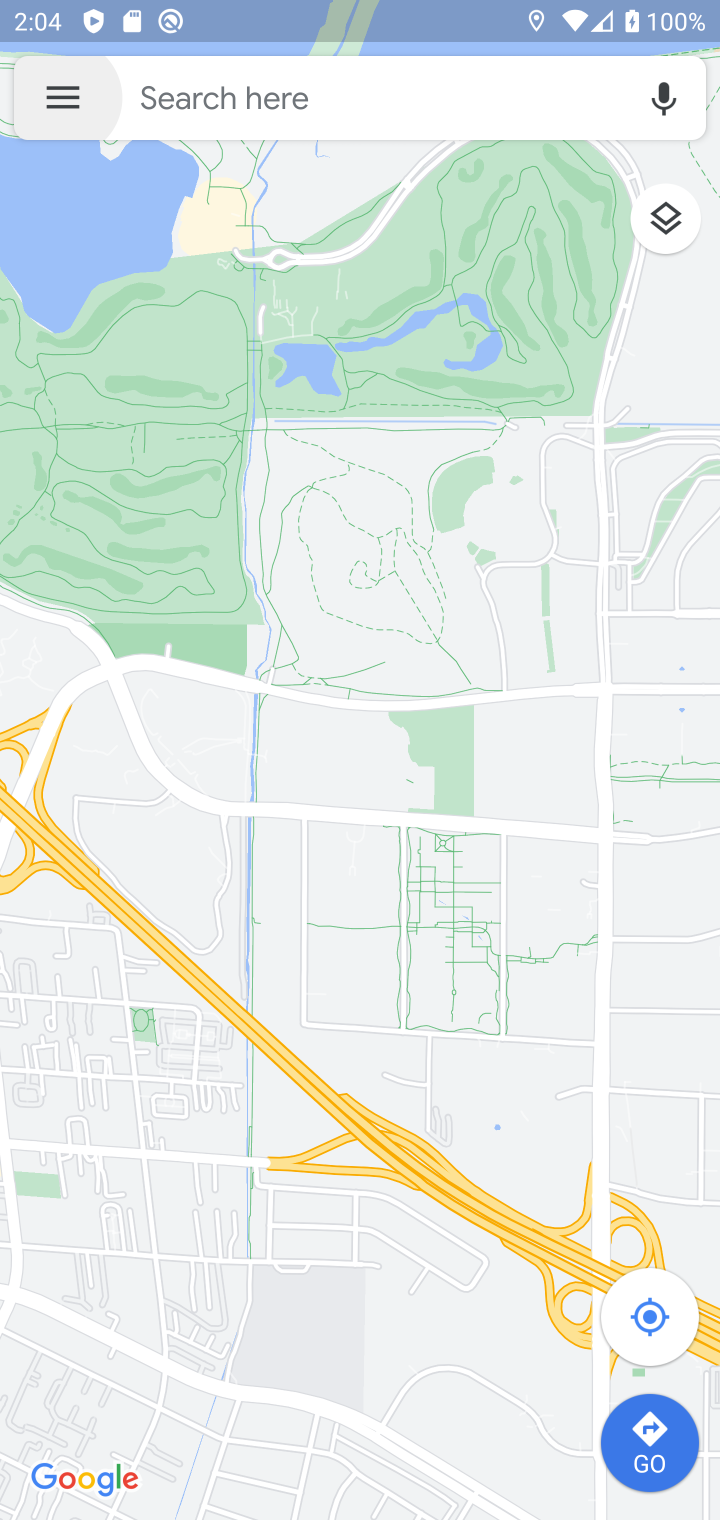
Step 29: click (86, 99)
Your task to perform on an android device: Check the news Image 30: 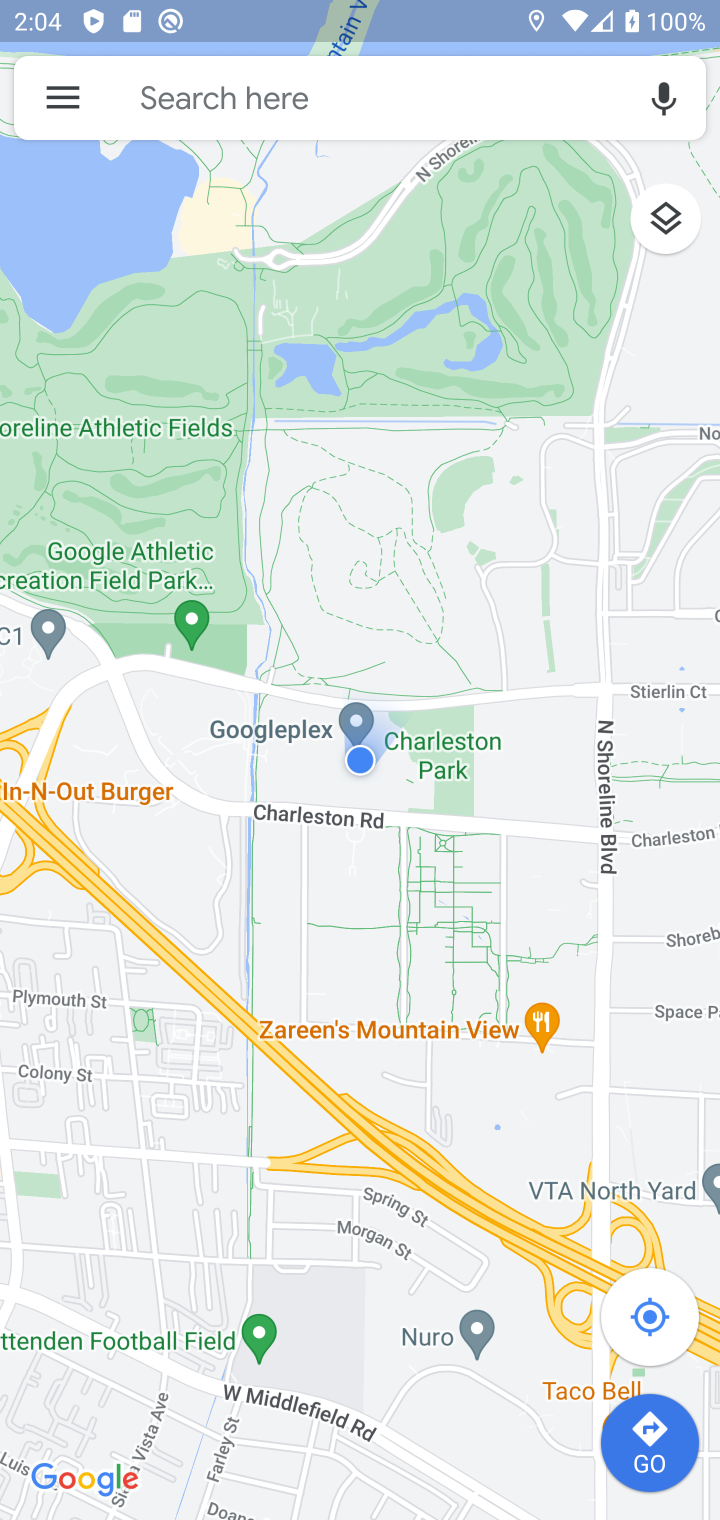
Step 30: click (83, 104)
Your task to perform on an android device: Check the news Image 31: 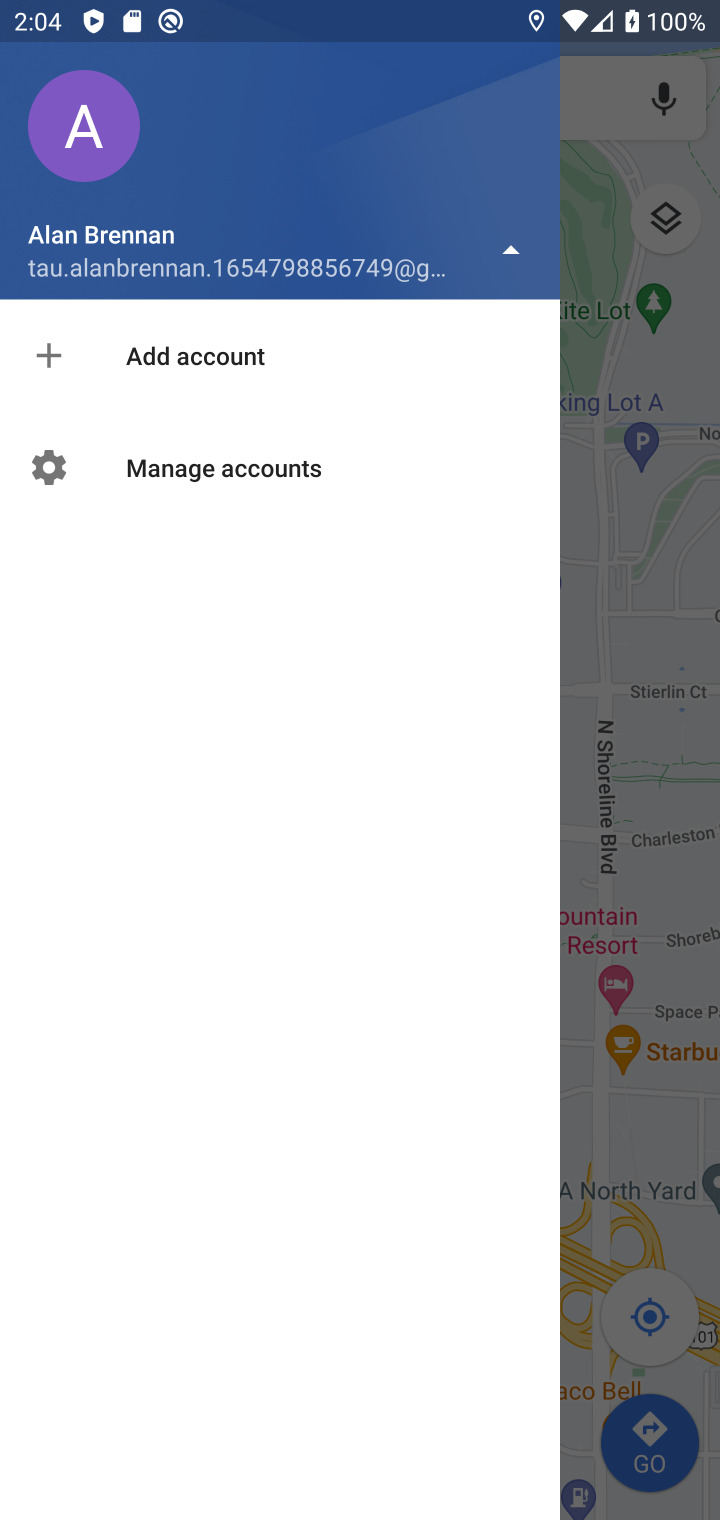
Step 31: press back button
Your task to perform on an android device: Check the news Image 32: 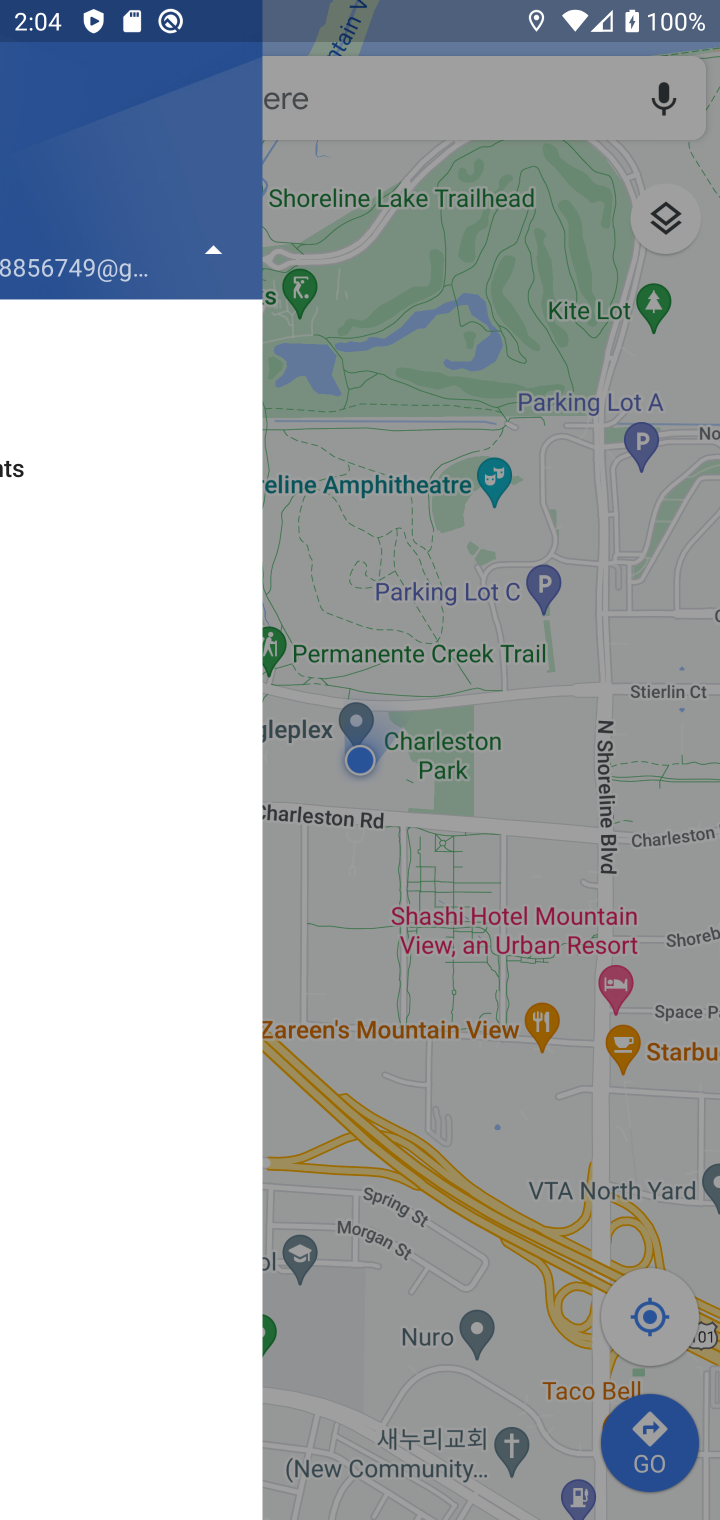
Step 32: press home button
Your task to perform on an android device: Check the news Image 33: 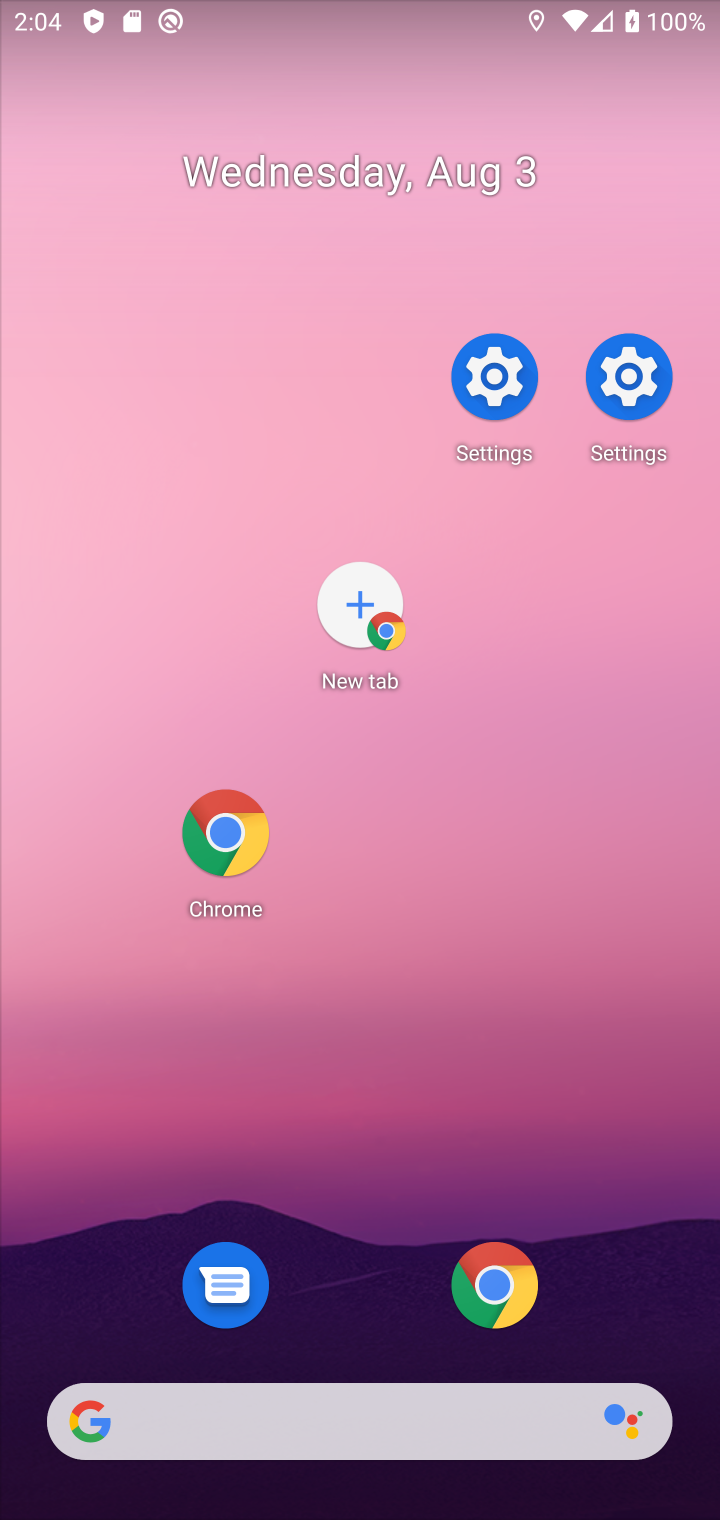
Step 33: click (259, 636)
Your task to perform on an android device: Check the news Image 34: 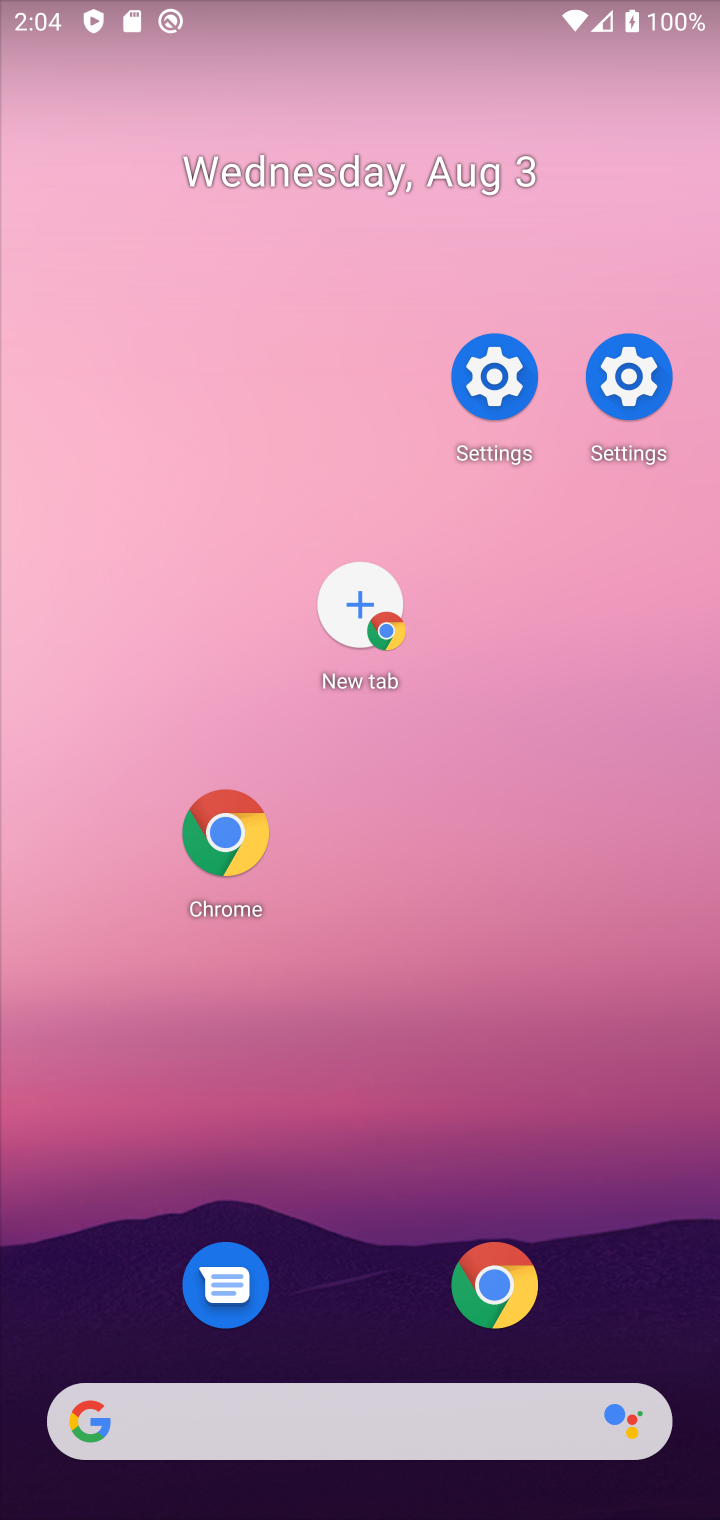
Step 34: click (169, 564)
Your task to perform on an android device: Check the news Image 35: 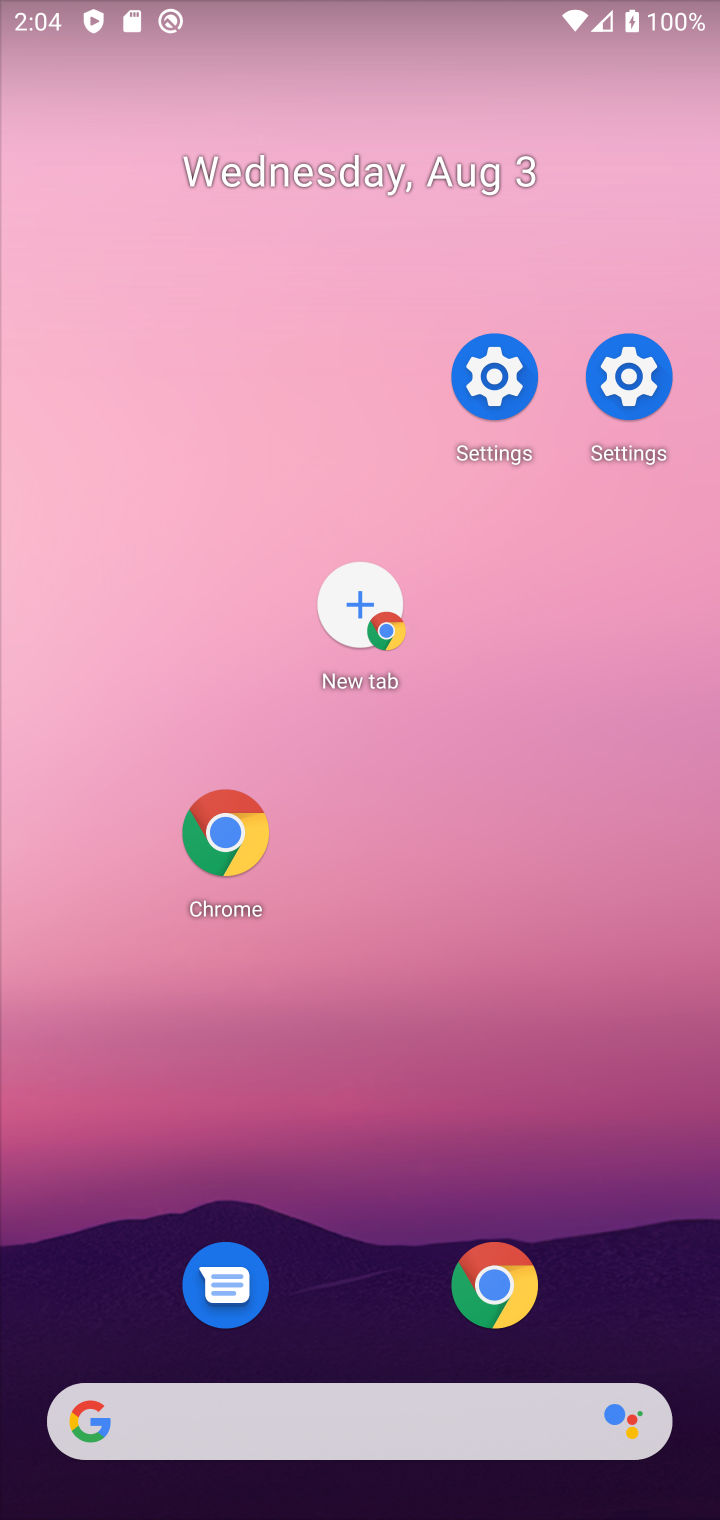
Step 35: click (255, 320)
Your task to perform on an android device: Check the news Image 36: 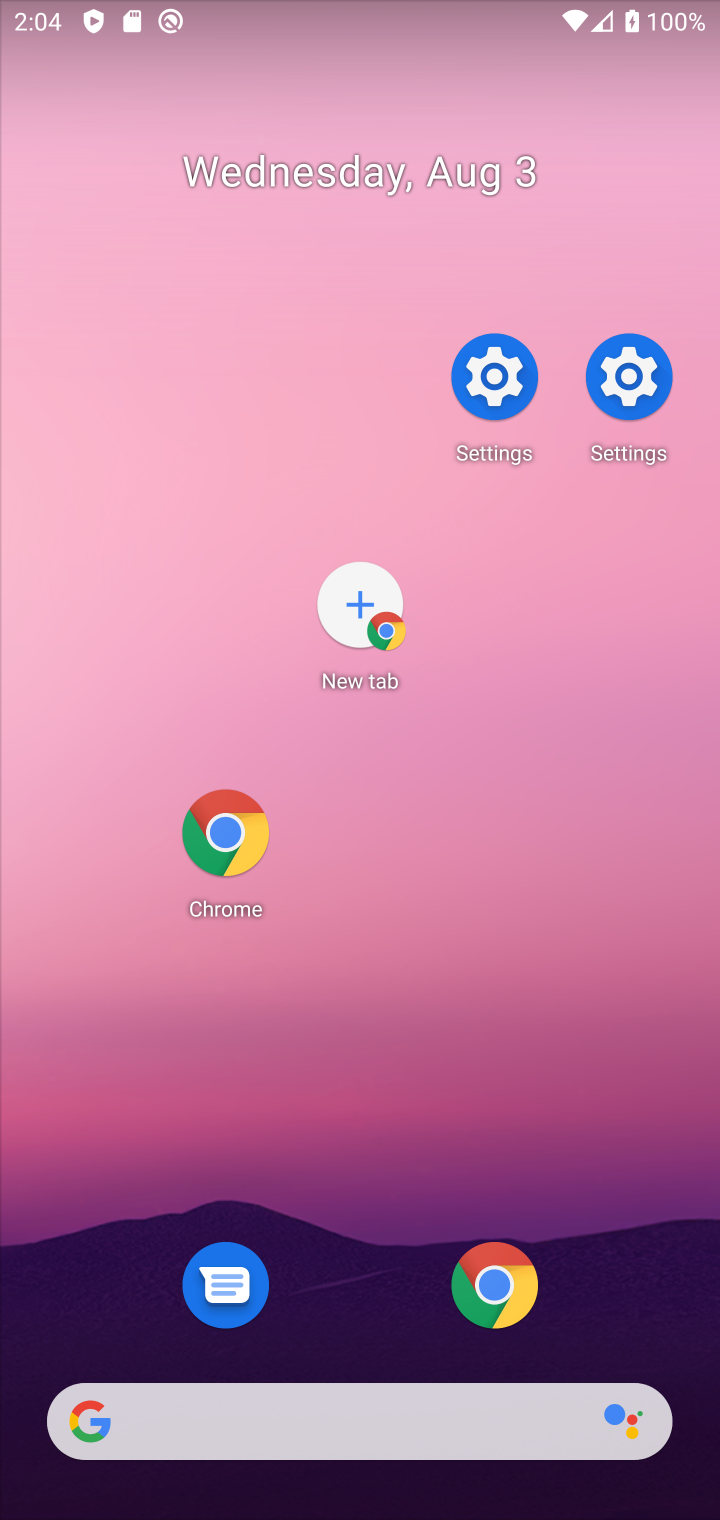
Step 36: drag from (369, 152) to (422, 0)
Your task to perform on an android device: Check the news Image 37: 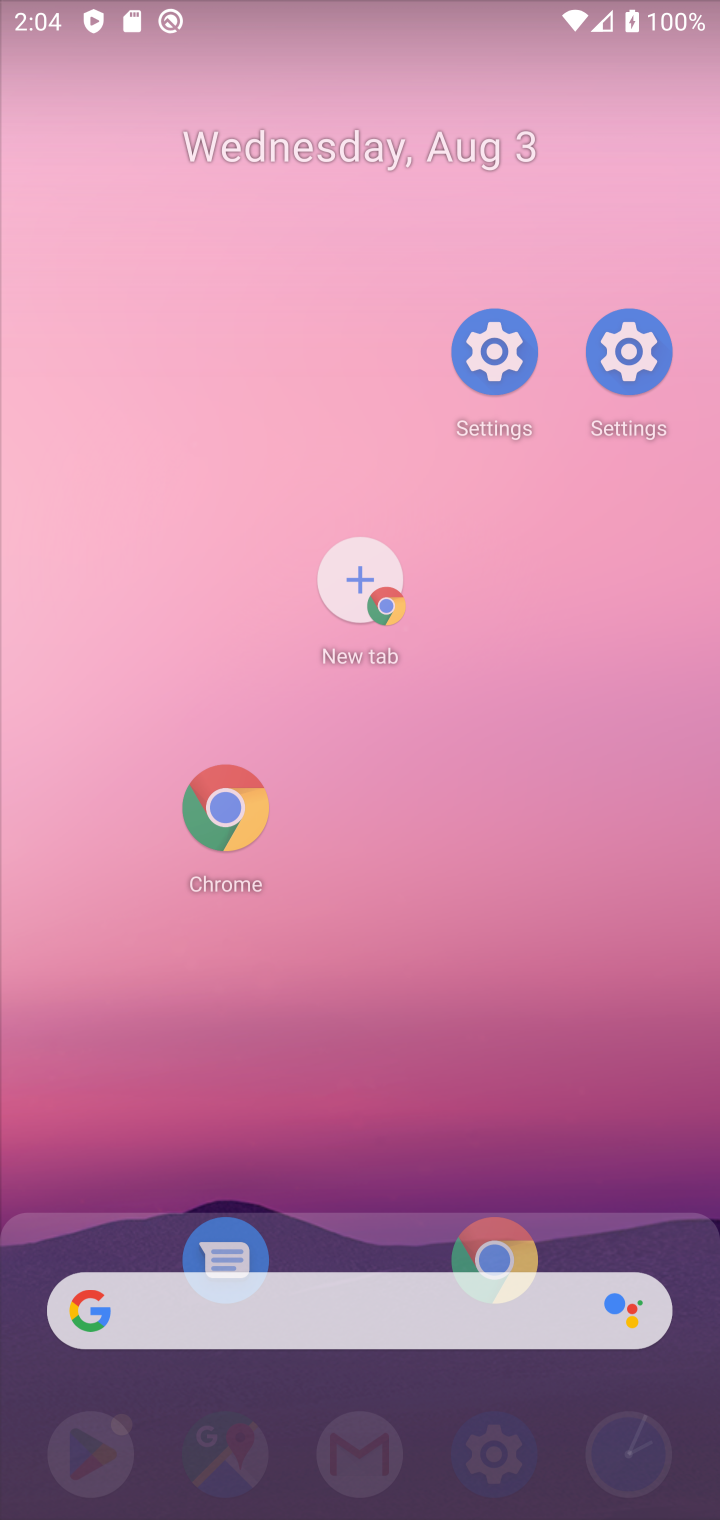
Step 37: drag from (400, 705) to (316, 174)
Your task to perform on an android device: Check the news Image 38: 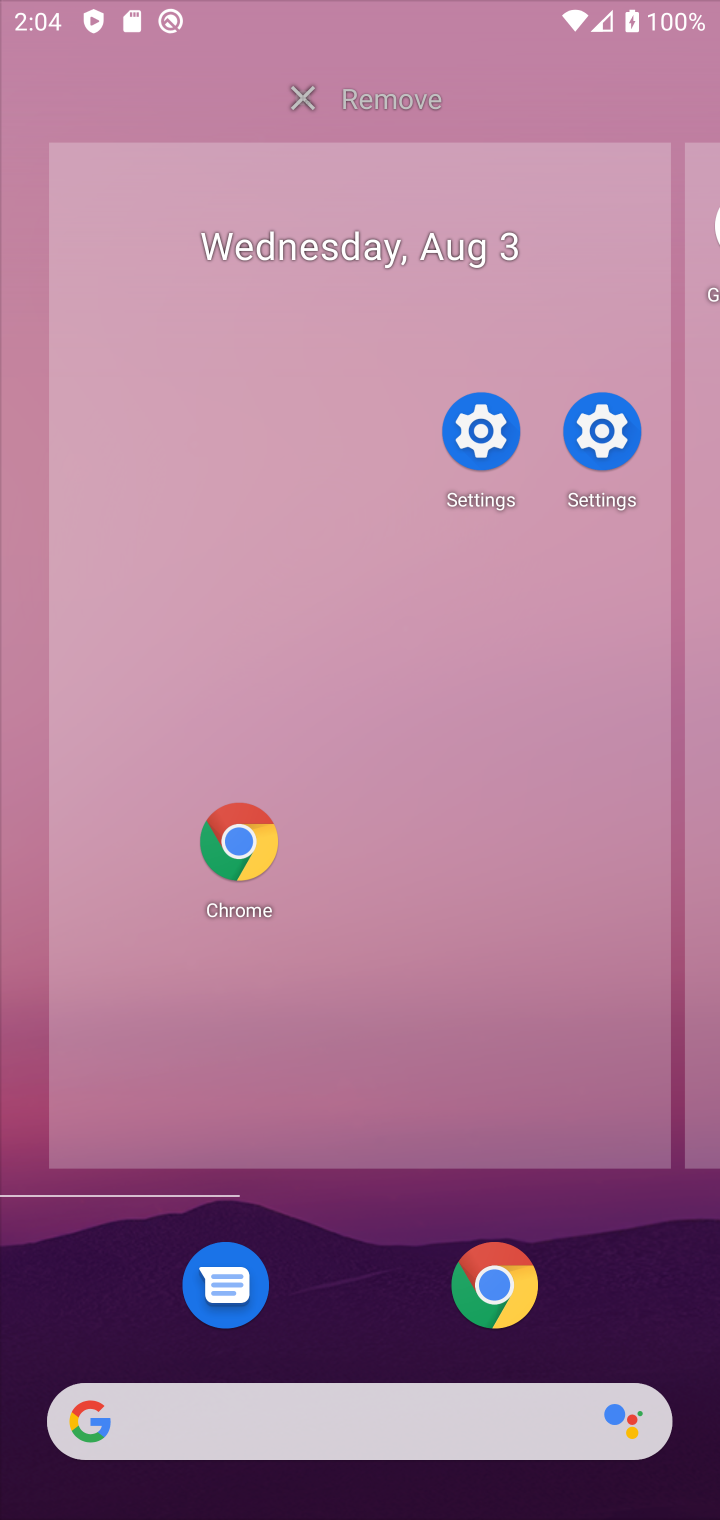
Step 38: click (433, 111)
Your task to perform on an android device: Check the news Image 39: 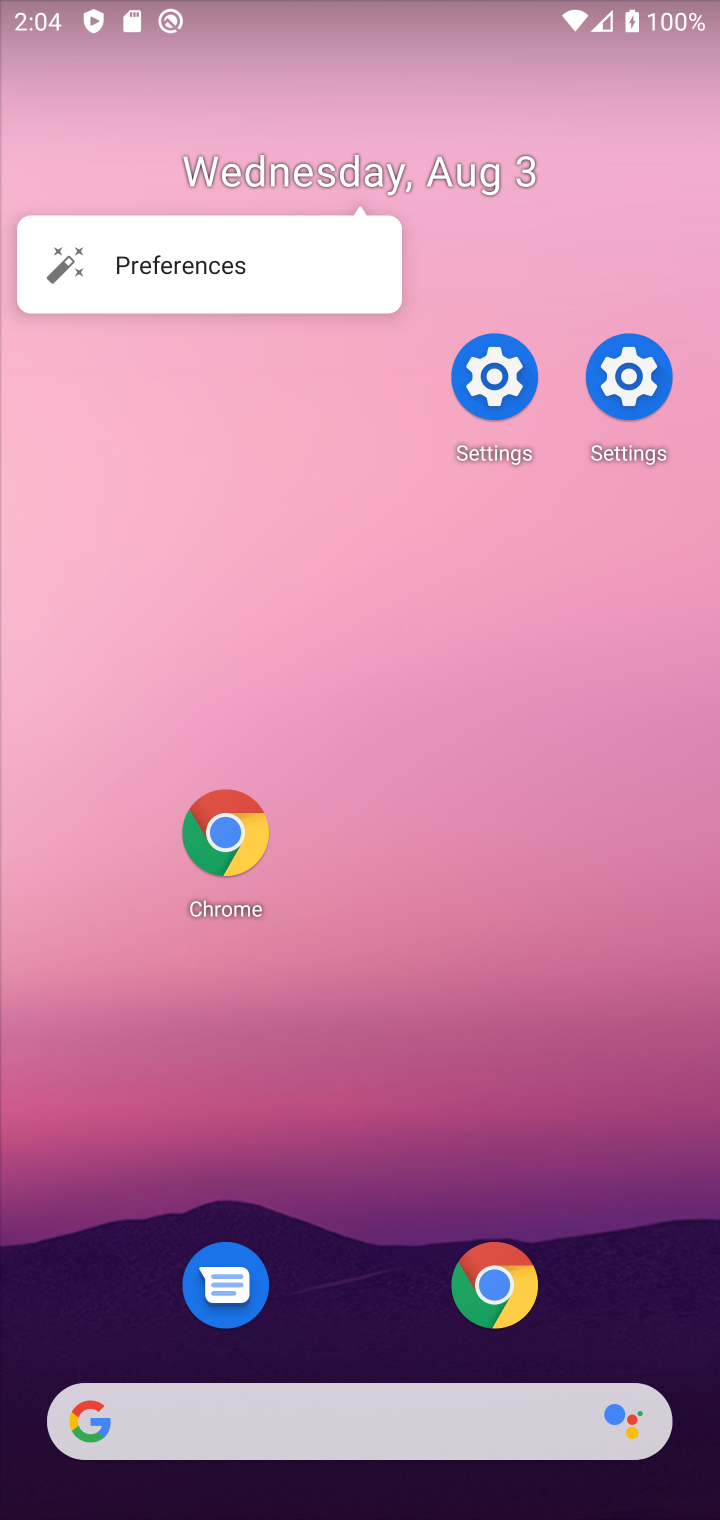
Step 39: click (469, 371)
Your task to perform on an android device: Check the news Image 40: 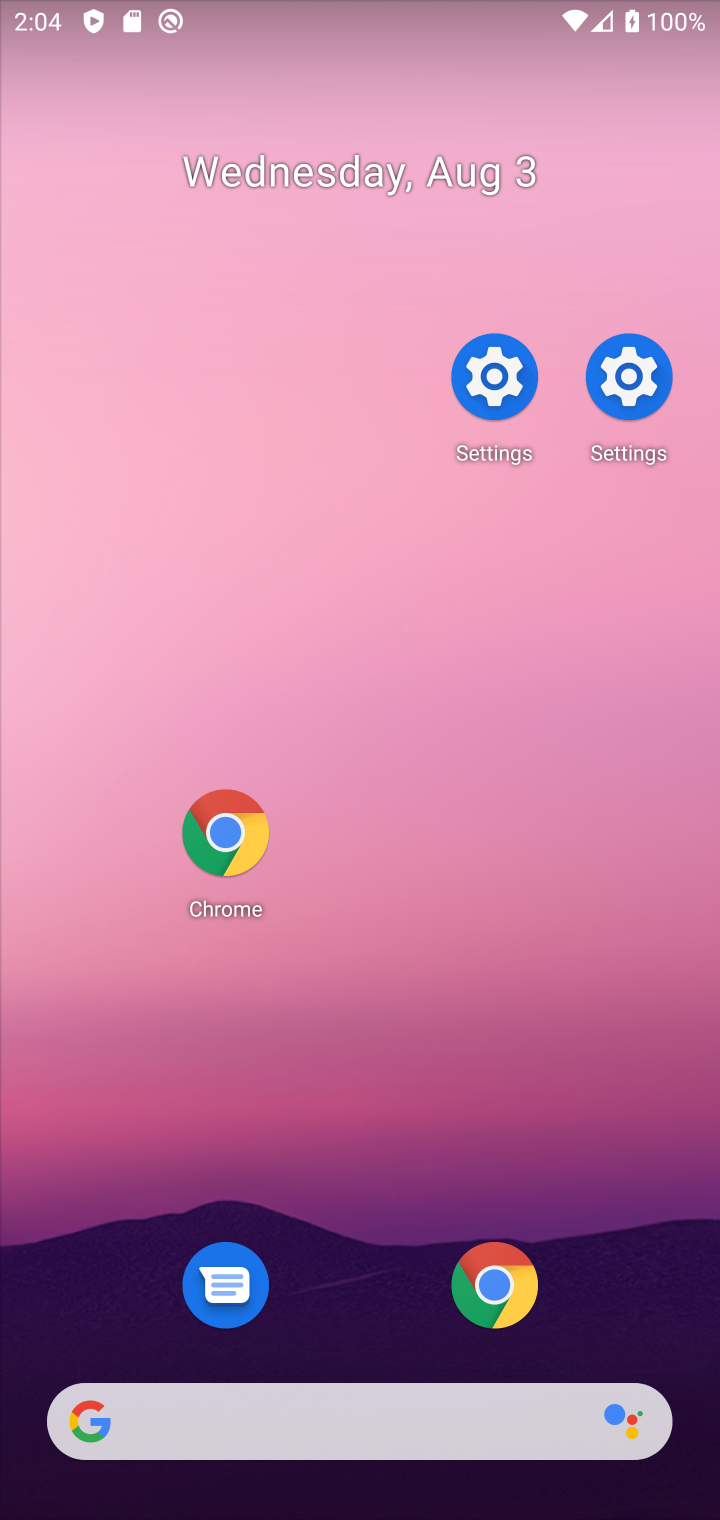
Step 40: drag from (299, 557) to (191, 140)
Your task to perform on an android device: Check the news Image 41: 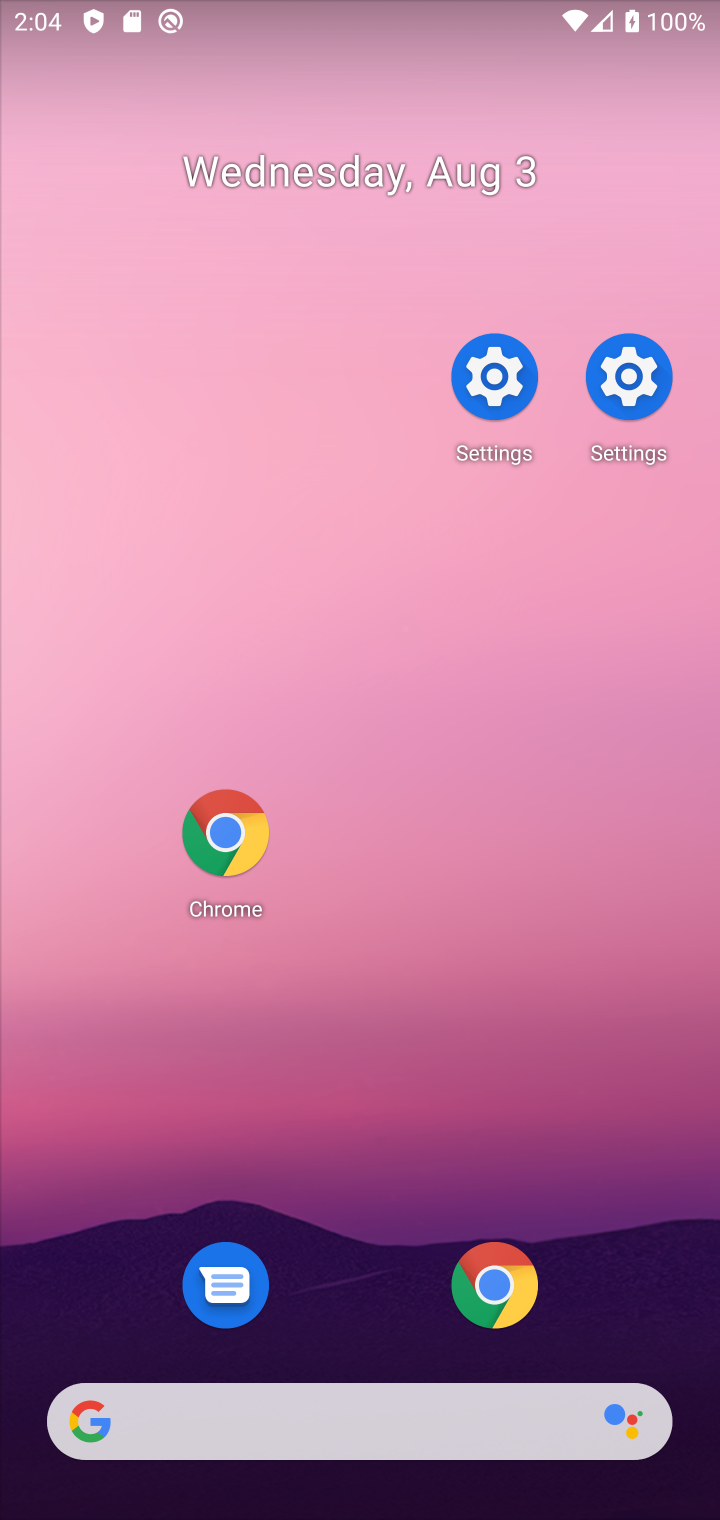
Step 41: click (490, 387)
Your task to perform on an android device: Check the news Image 42: 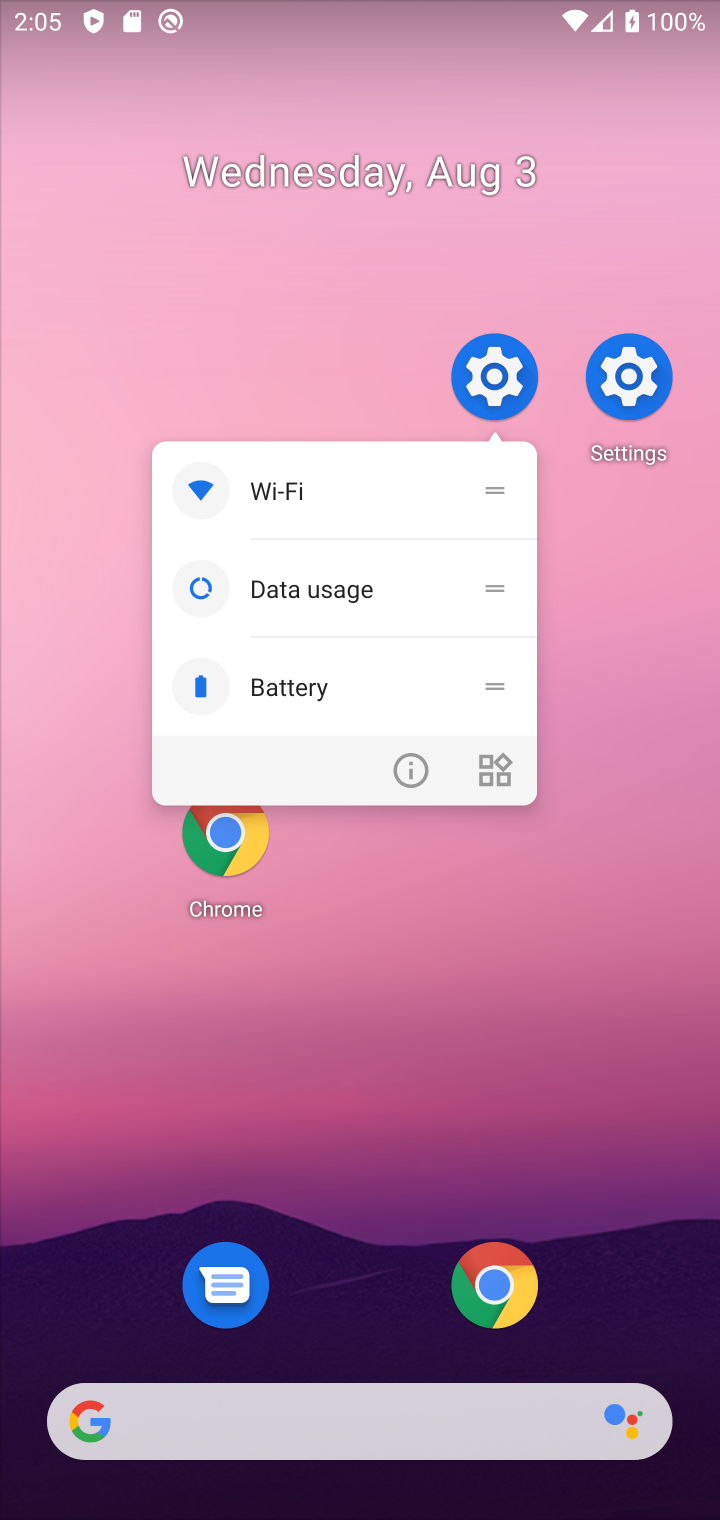
Step 42: drag from (204, 483) to (162, 357)
Your task to perform on an android device: Check the news Image 43: 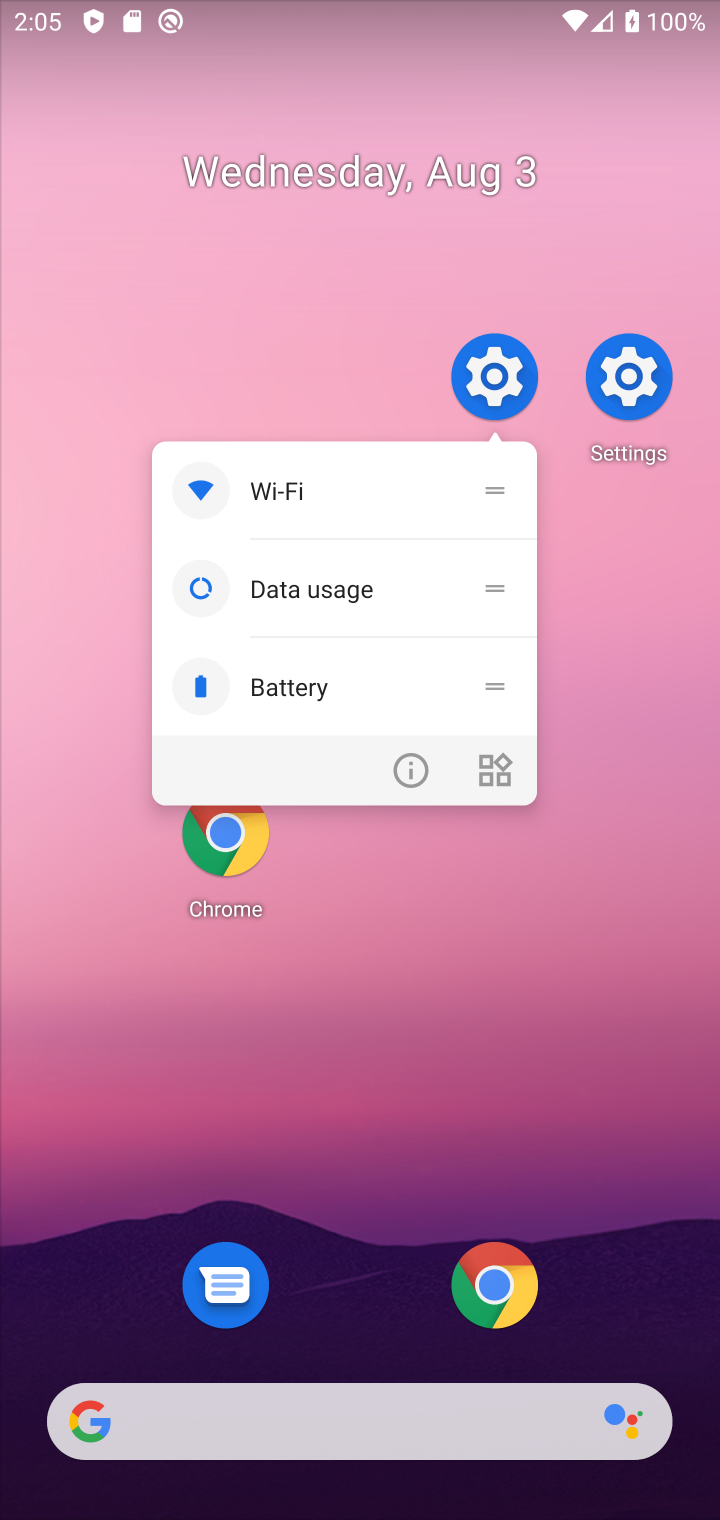
Step 43: drag from (65, 215) to (6, 169)
Your task to perform on an android device: Check the news Image 44: 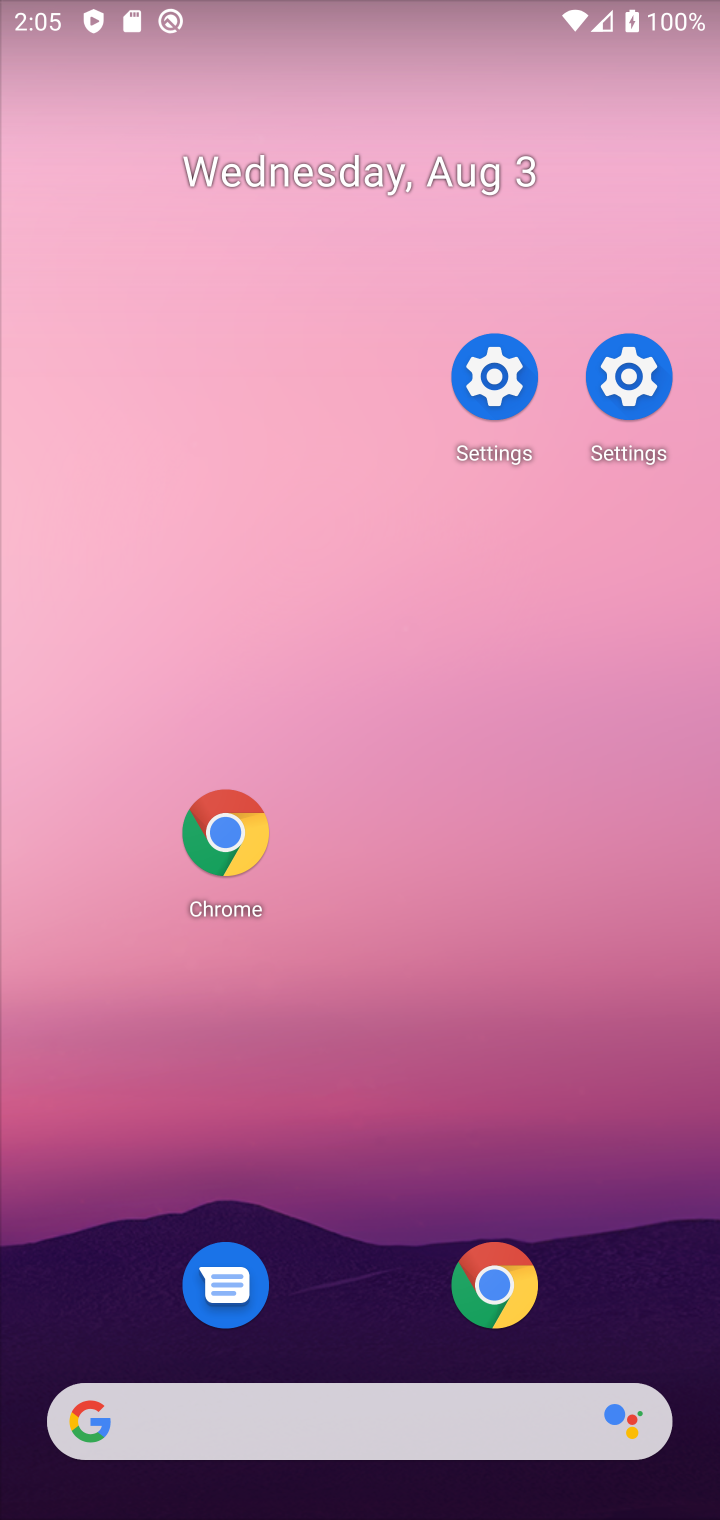
Step 44: drag from (124, 724) to (189, 134)
Your task to perform on an android device: Check the news Image 45: 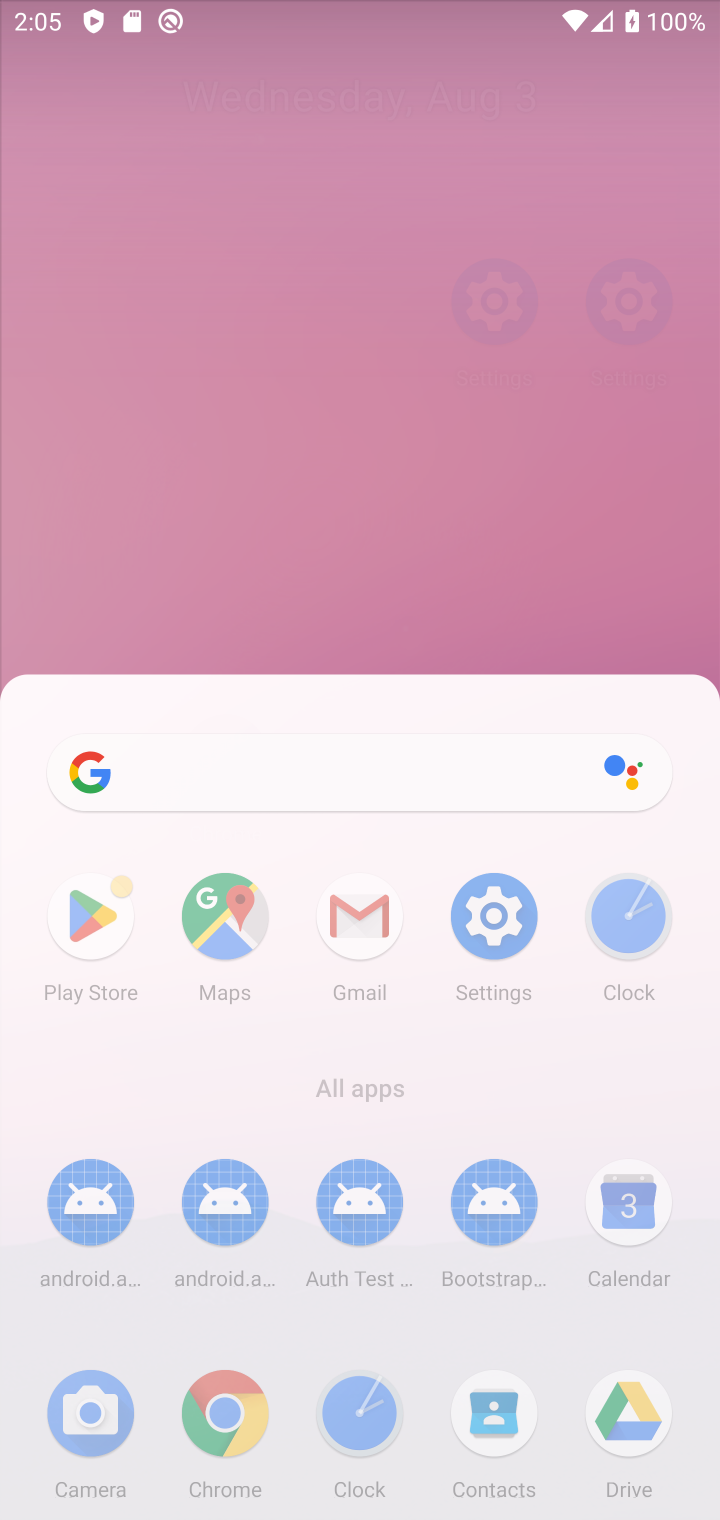
Step 45: drag from (352, 997) to (321, 355)
Your task to perform on an android device: Check the news Image 46: 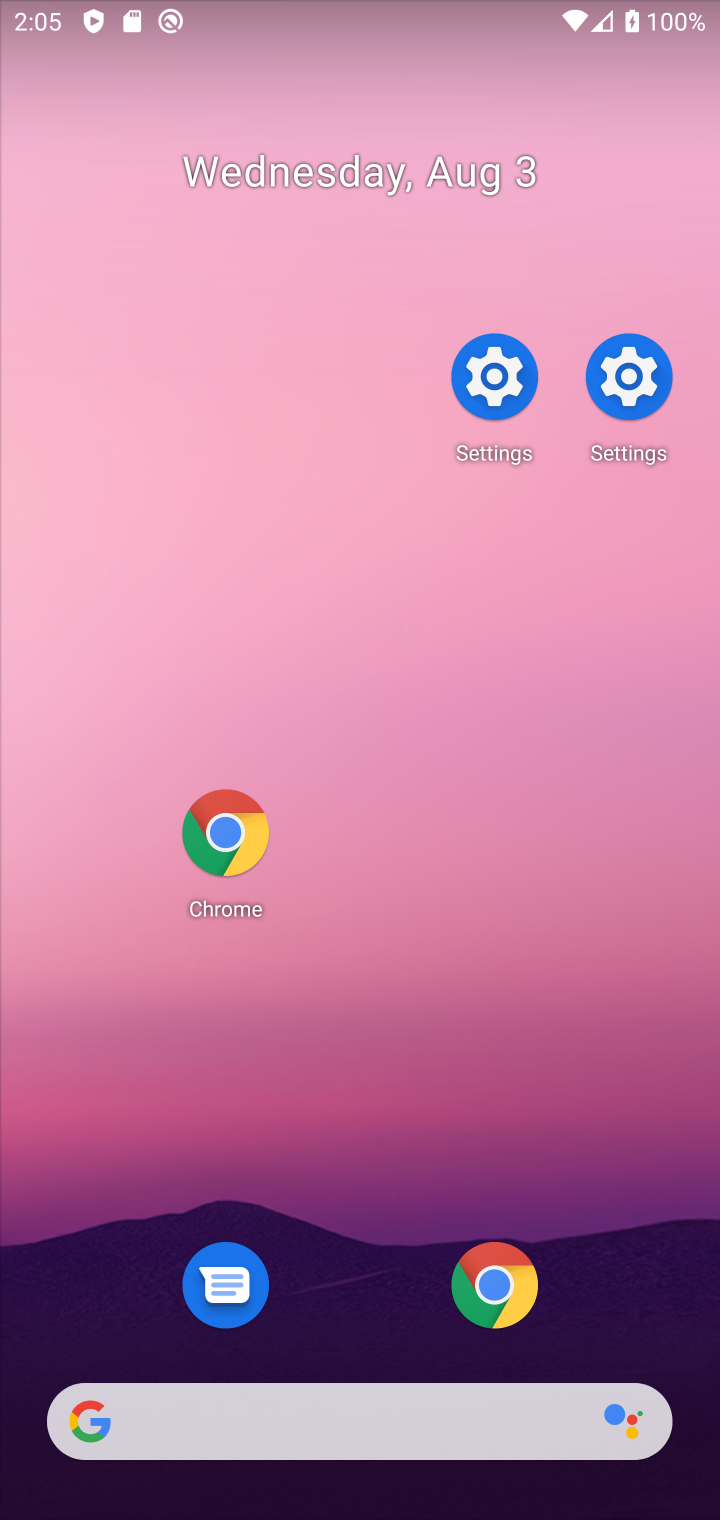
Step 46: drag from (264, 656) to (176, 86)
Your task to perform on an android device: Check the news Image 47: 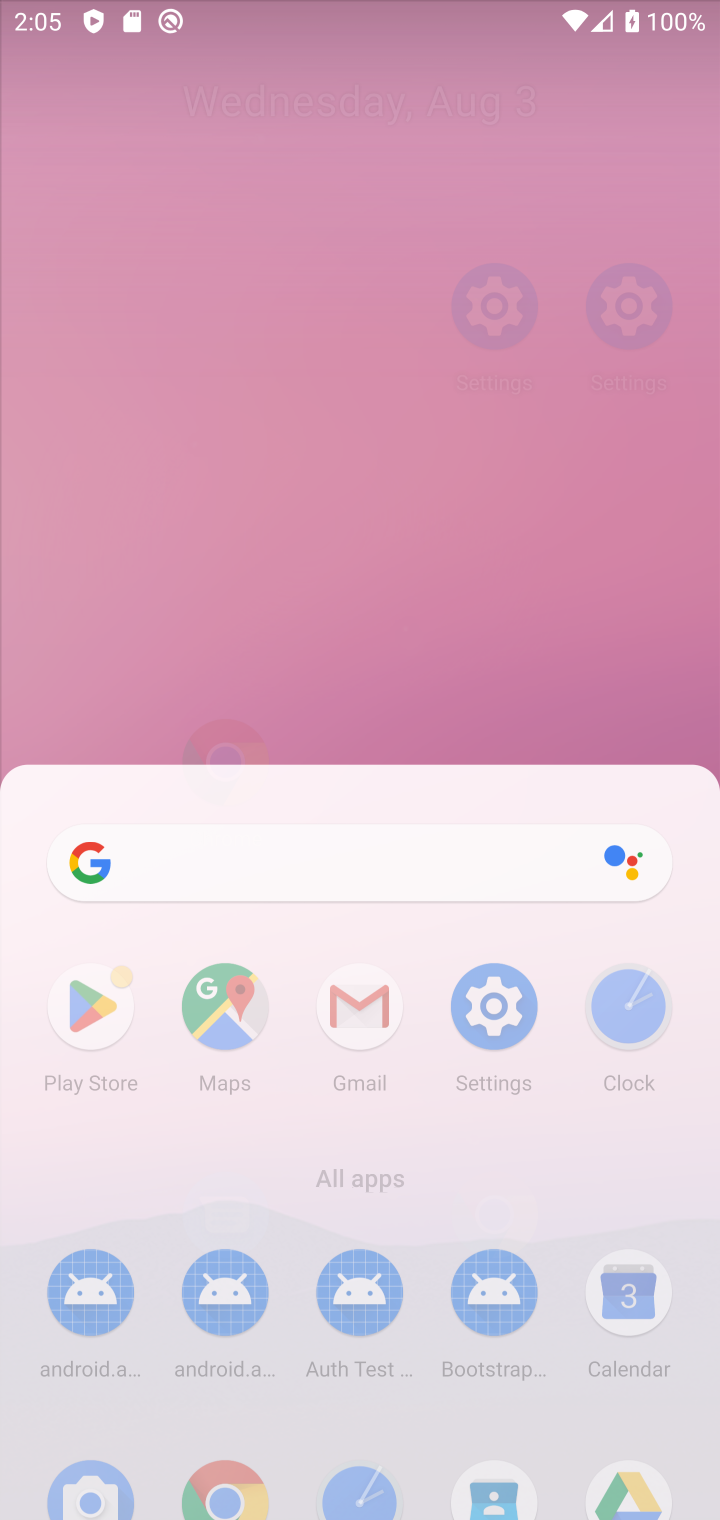
Step 47: drag from (222, 136) to (188, 494)
Your task to perform on an android device: Check the news Image 48: 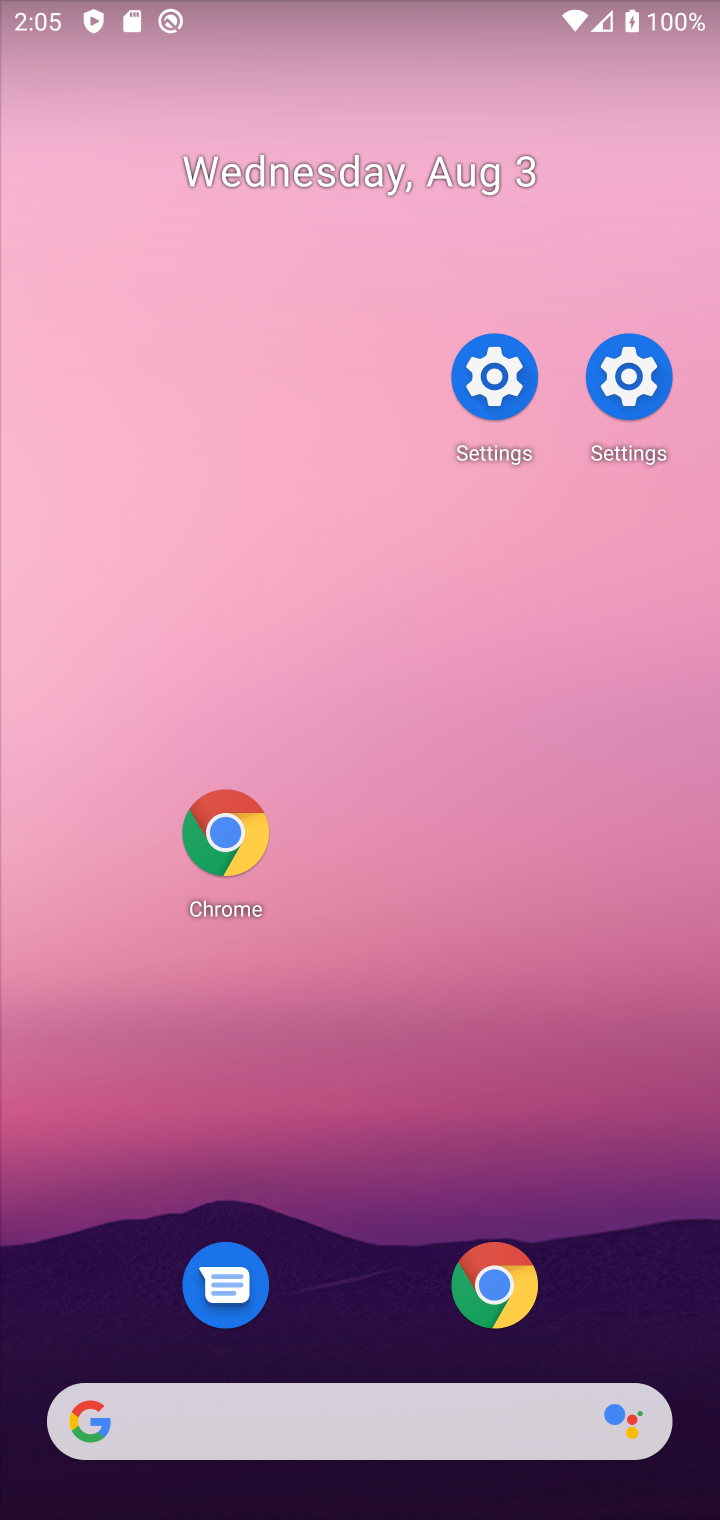
Step 48: drag from (404, 1155) to (242, 237)
Your task to perform on an android device: Check the news Image 49: 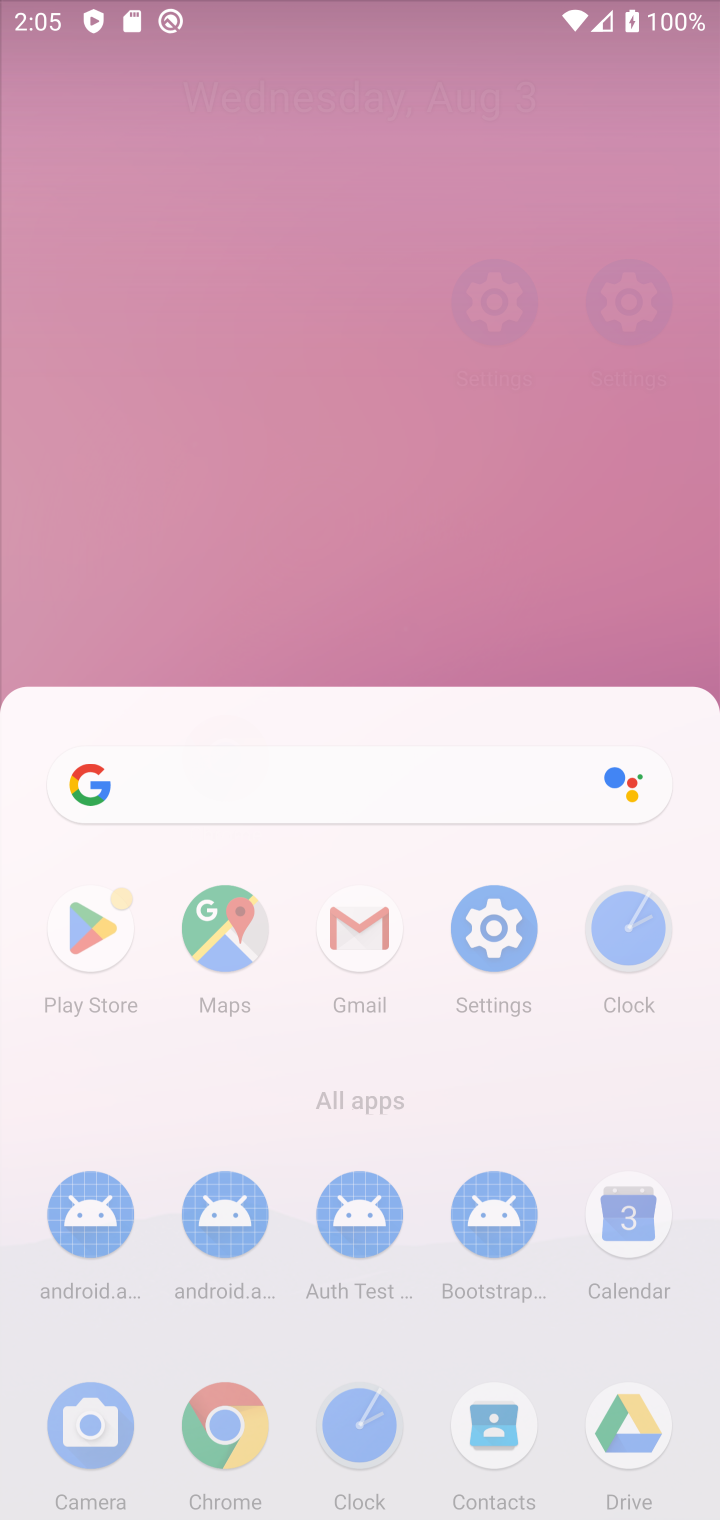
Step 49: drag from (388, 762) to (222, 143)
Your task to perform on an android device: Check the news Image 50: 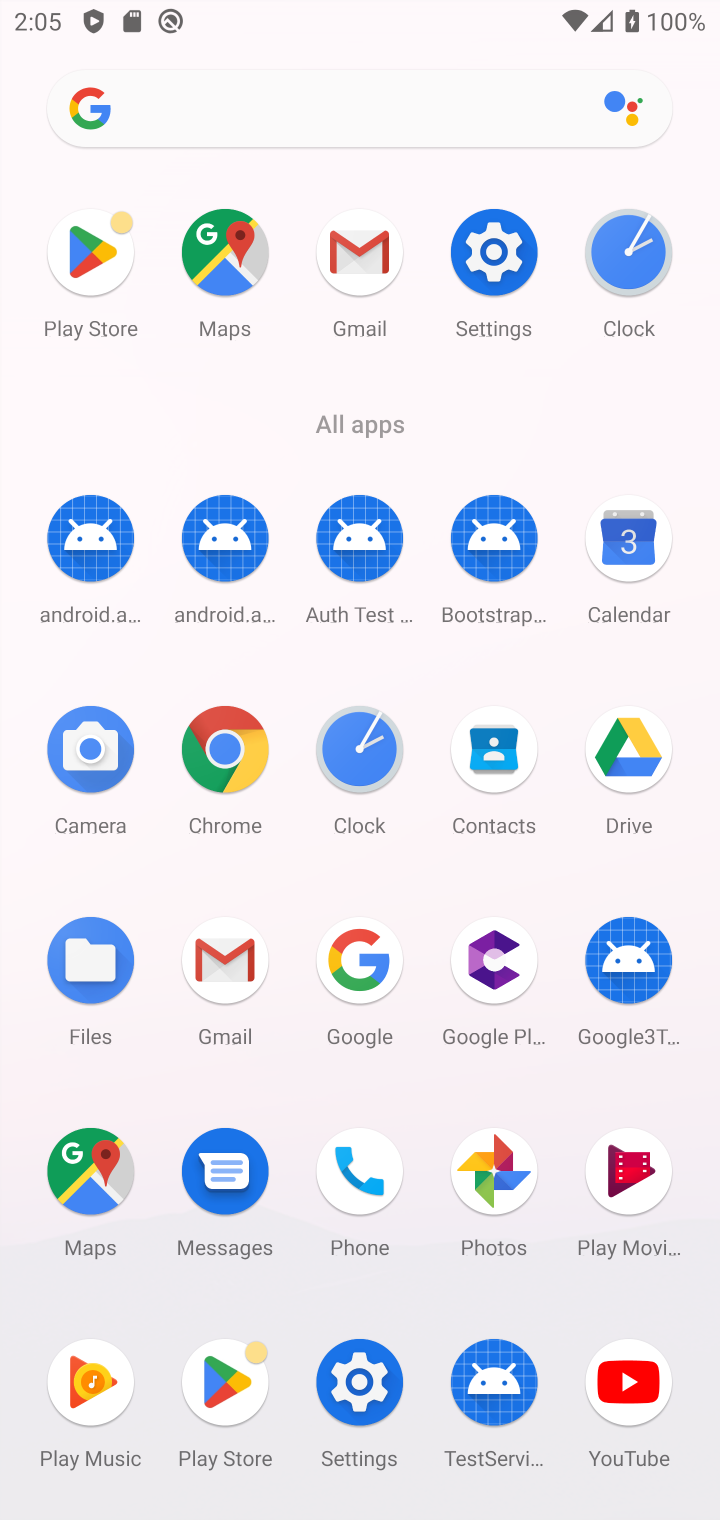
Step 50: click (228, 760)
Your task to perform on an android device: Check the news Image 51: 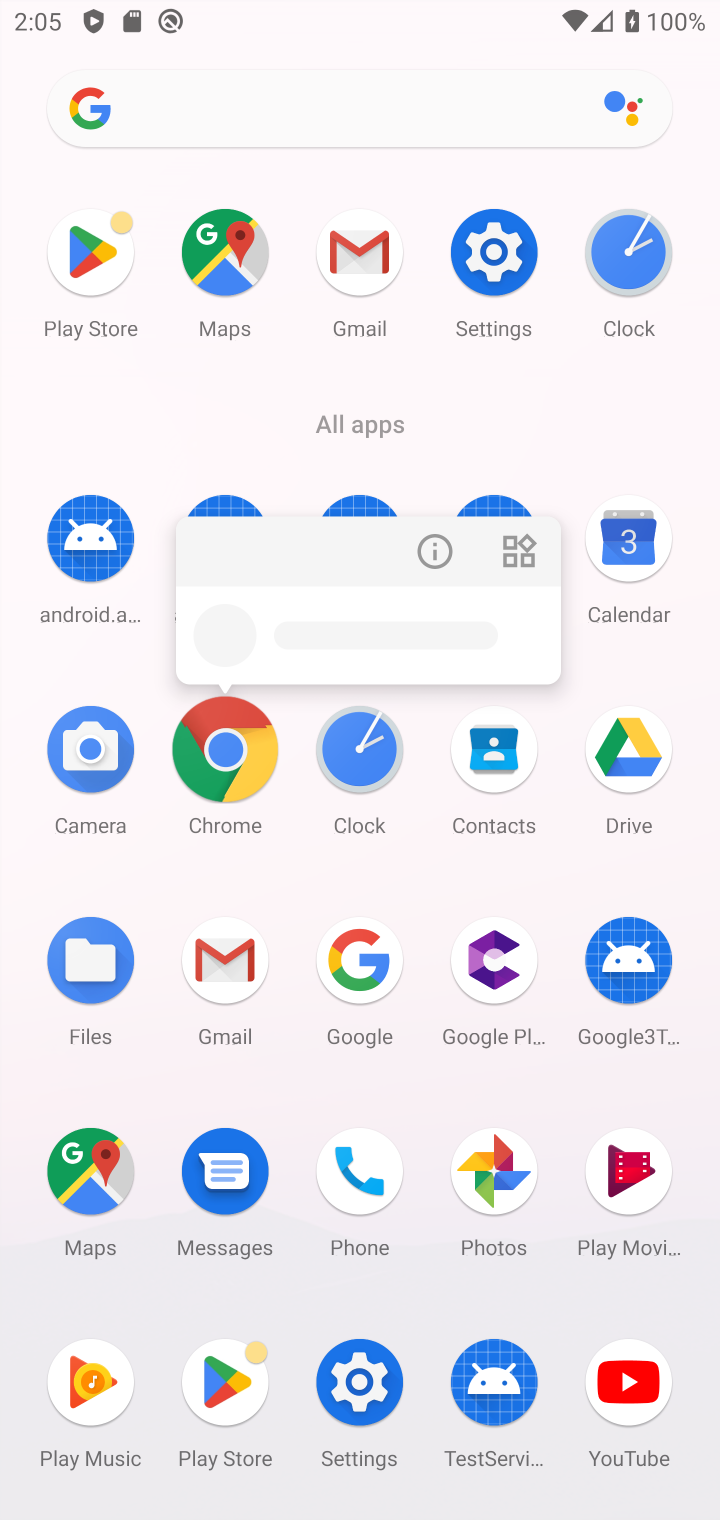
Step 51: click (259, 701)
Your task to perform on an android device: Check the news Image 52: 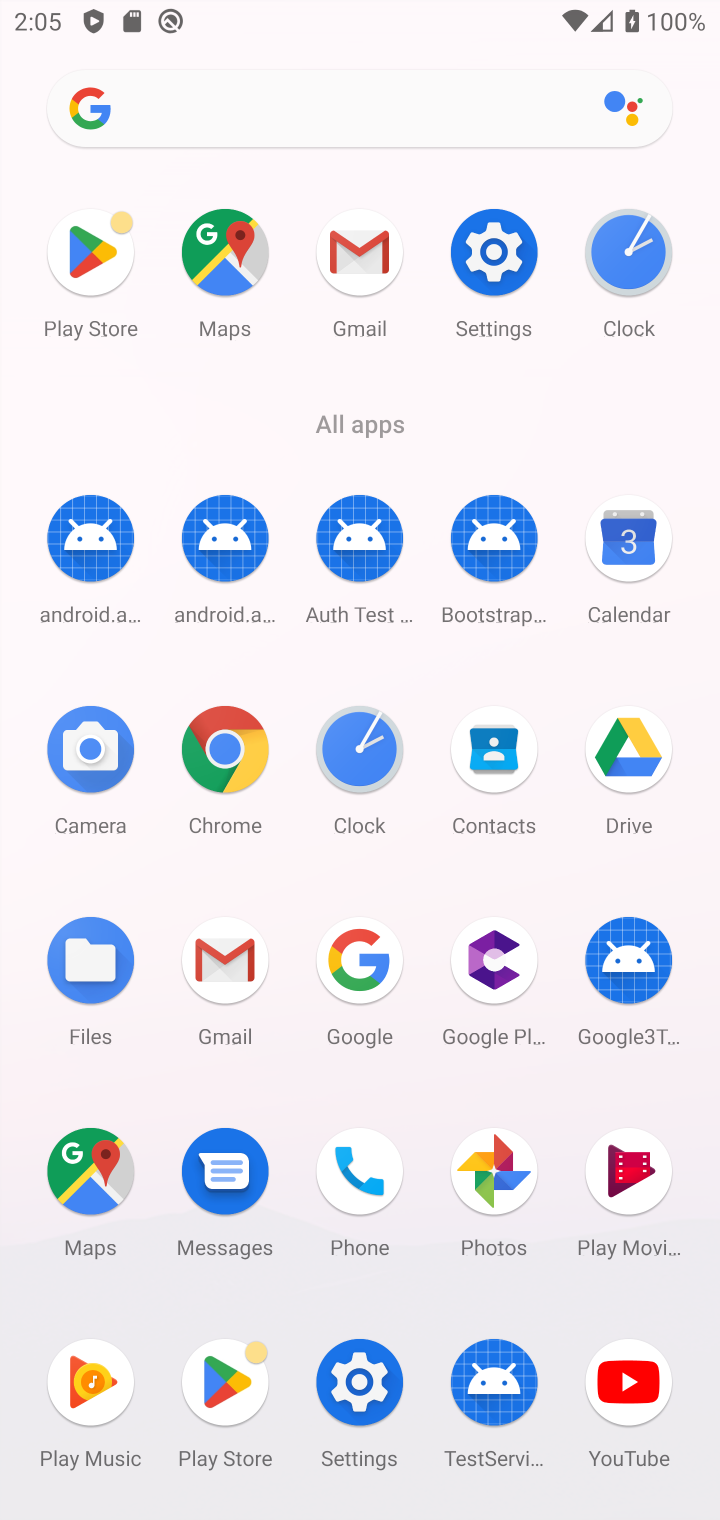
Step 52: click (210, 755)
Your task to perform on an android device: Check the news Image 53: 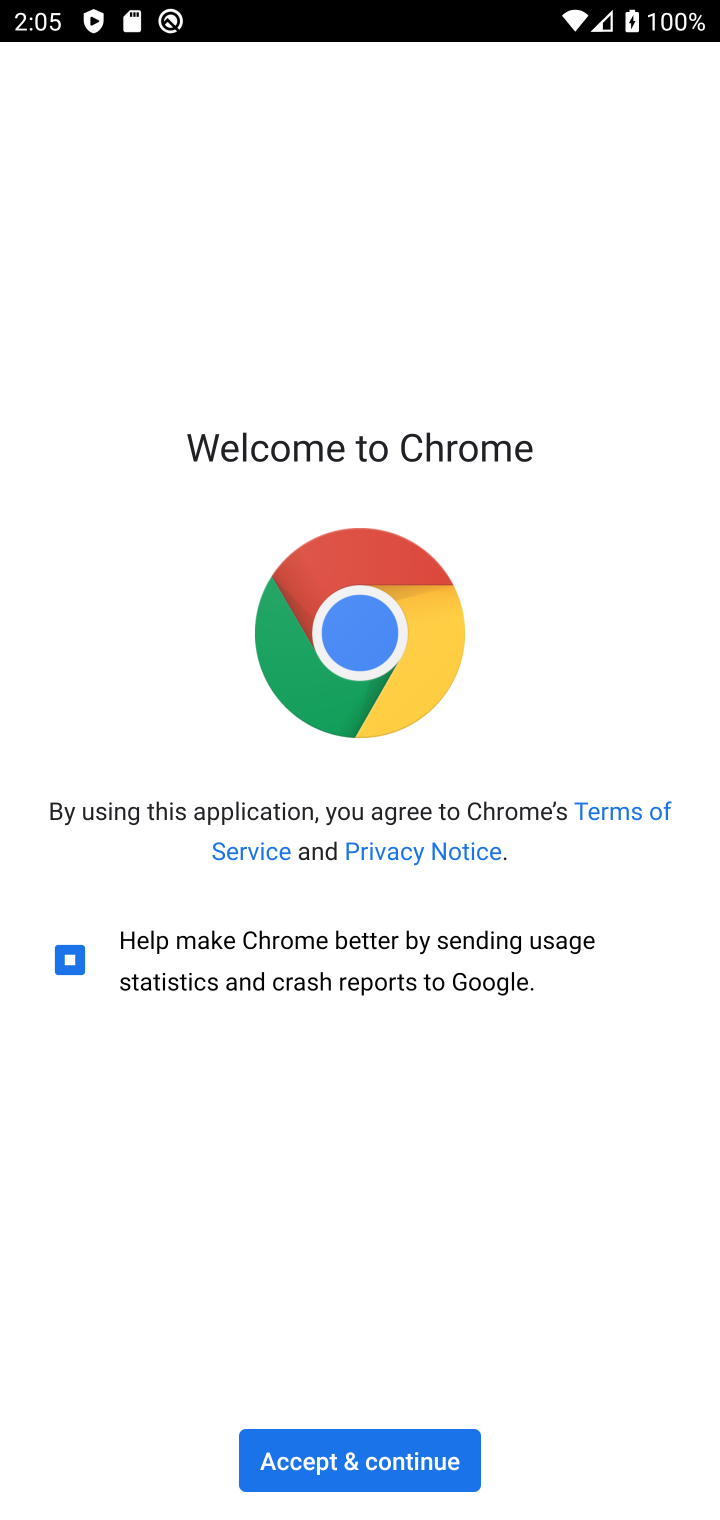
Step 53: click (213, 750)
Your task to perform on an android device: Check the news Image 54: 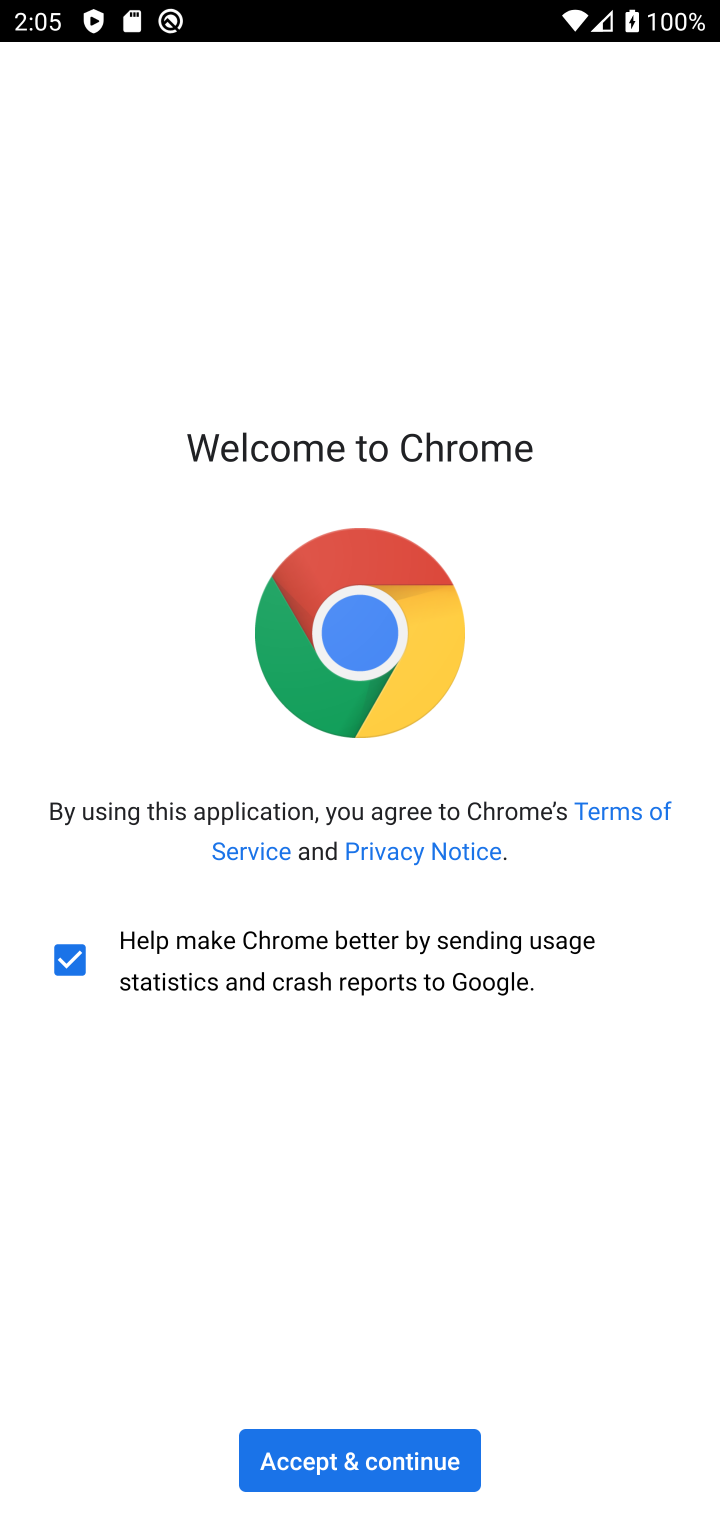
Step 54: click (381, 1452)
Your task to perform on an android device: Check the news Image 55: 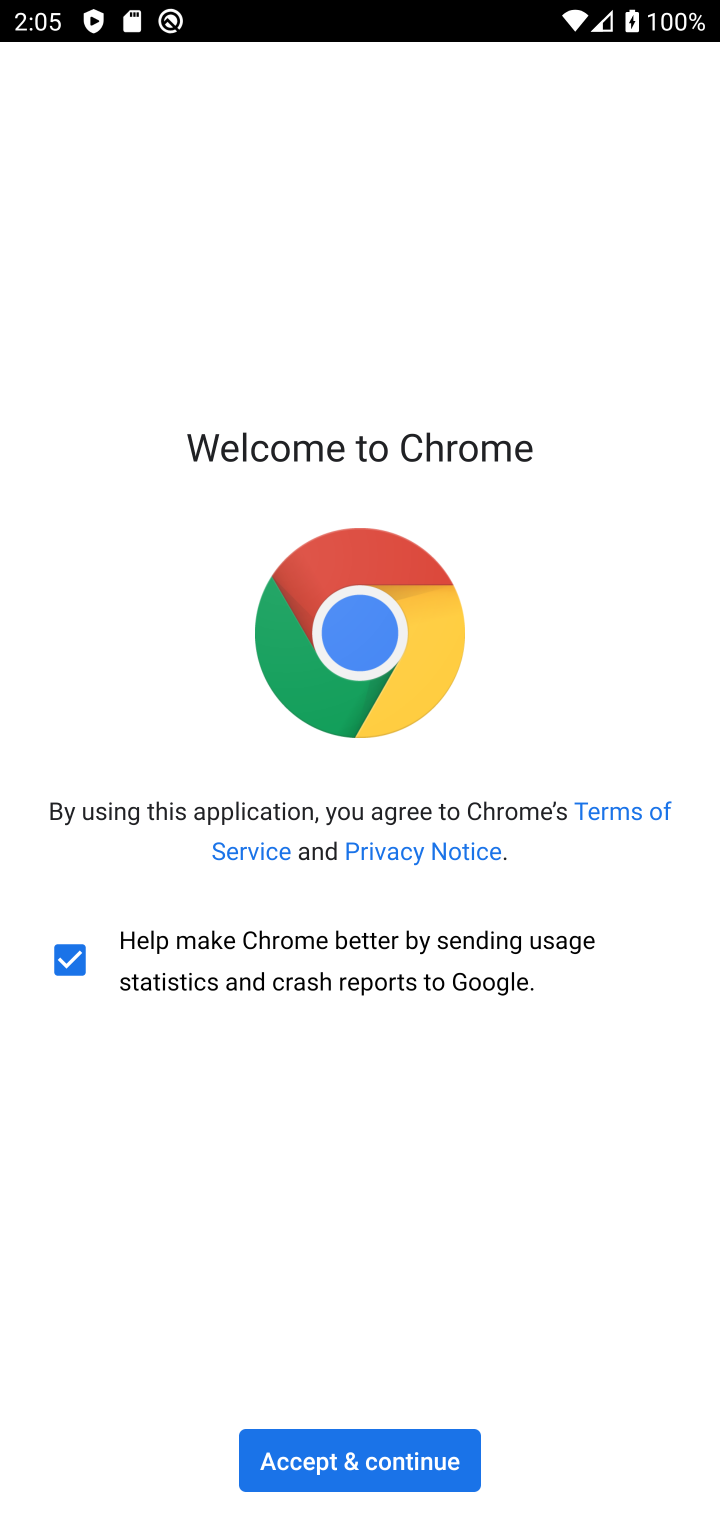
Step 55: click (381, 1452)
Your task to perform on an android device: Check the news Image 56: 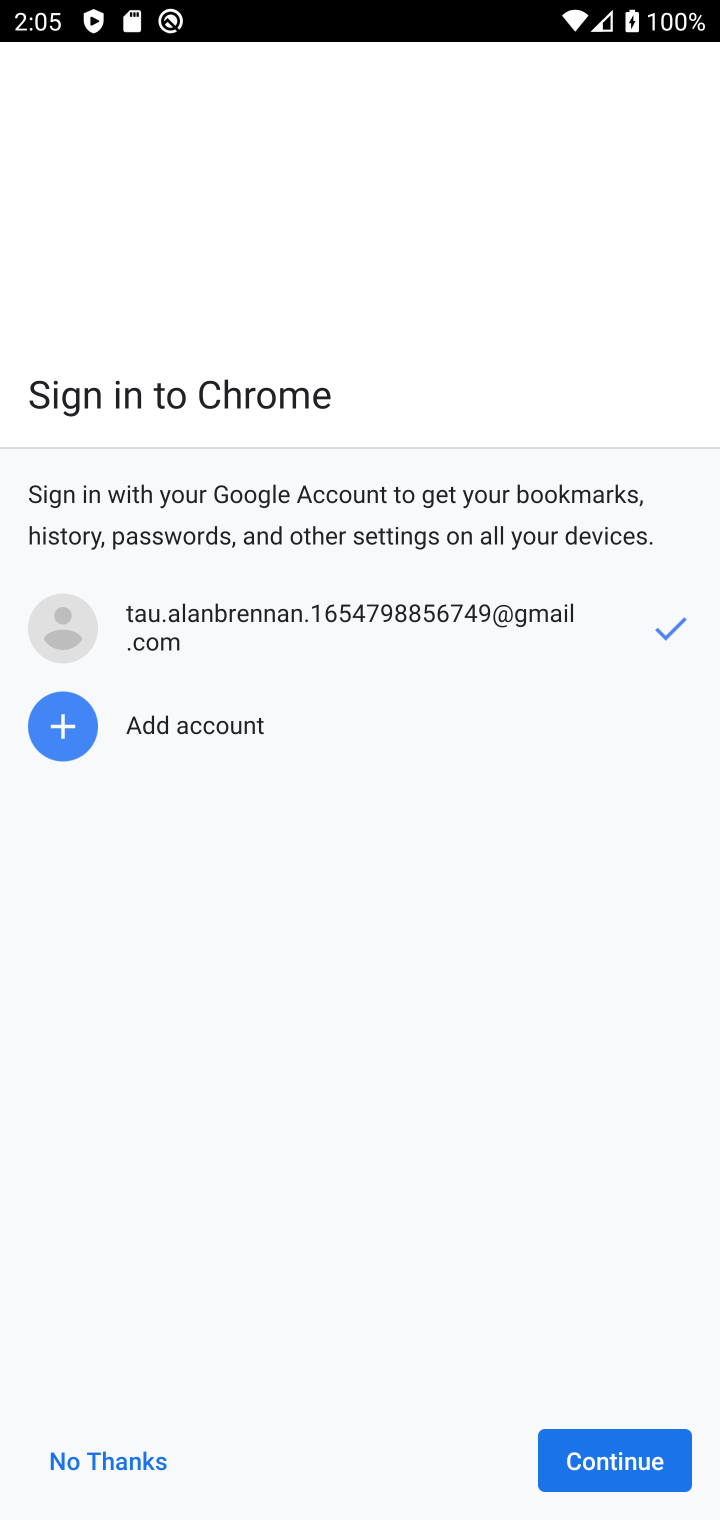
Step 56: click (99, 1468)
Your task to perform on an android device: Check the news Image 57: 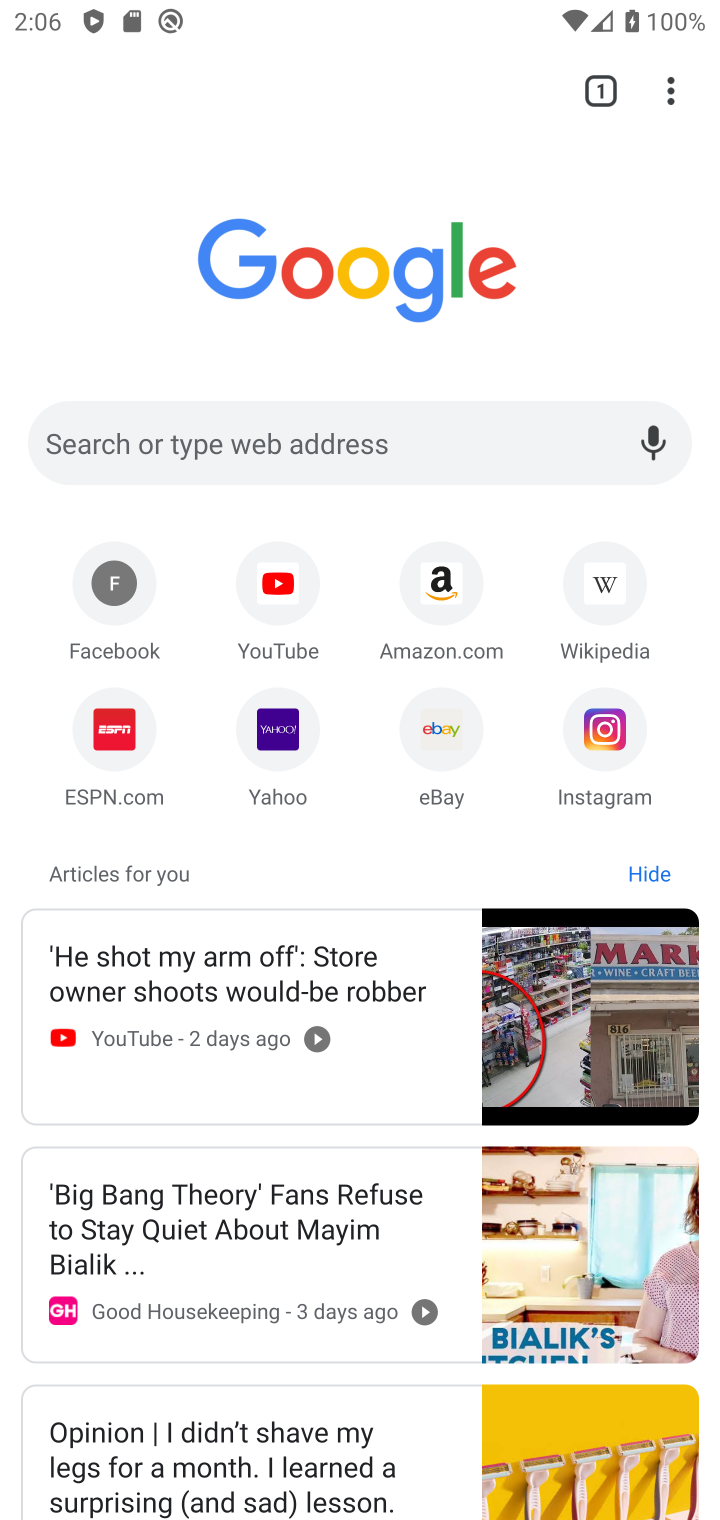
Step 57: task complete